Your task to perform on an android device: Clear all items from cart on costco. Search for "corsair k70" on costco, select the first entry, add it to the cart, then select checkout. Image 0: 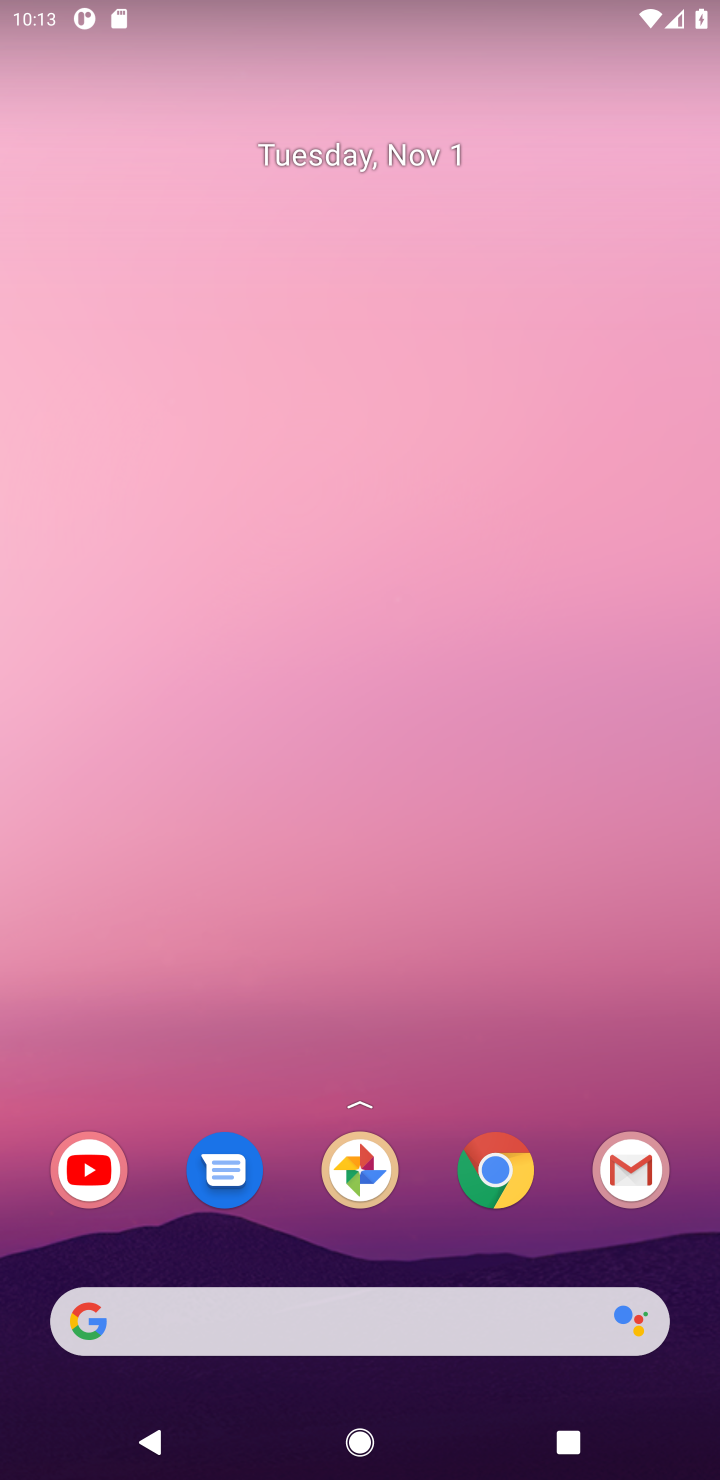
Step 0: click (498, 1182)
Your task to perform on an android device: Clear all items from cart on costco. Search for "corsair k70" on costco, select the first entry, add it to the cart, then select checkout. Image 1: 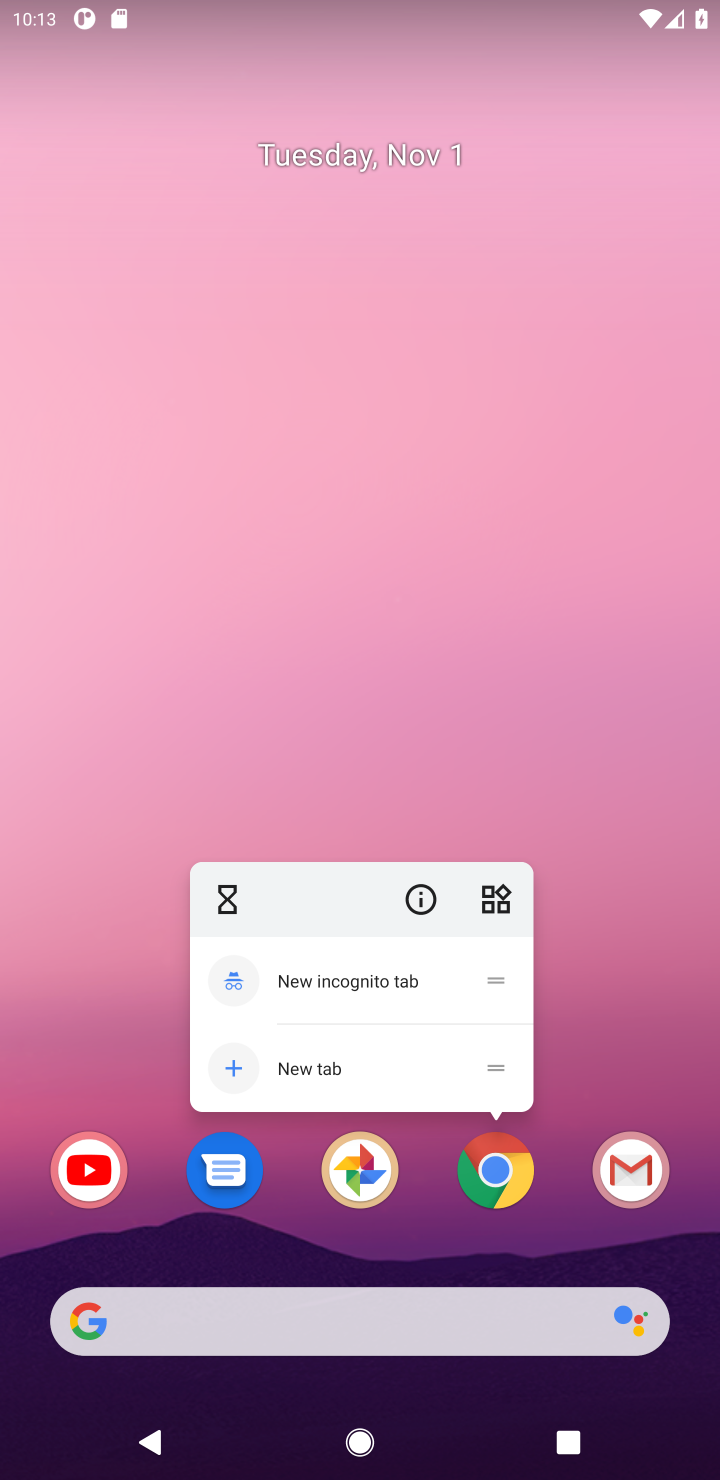
Step 1: click (518, 1169)
Your task to perform on an android device: Clear all items from cart on costco. Search for "corsair k70" on costco, select the first entry, add it to the cart, then select checkout. Image 2: 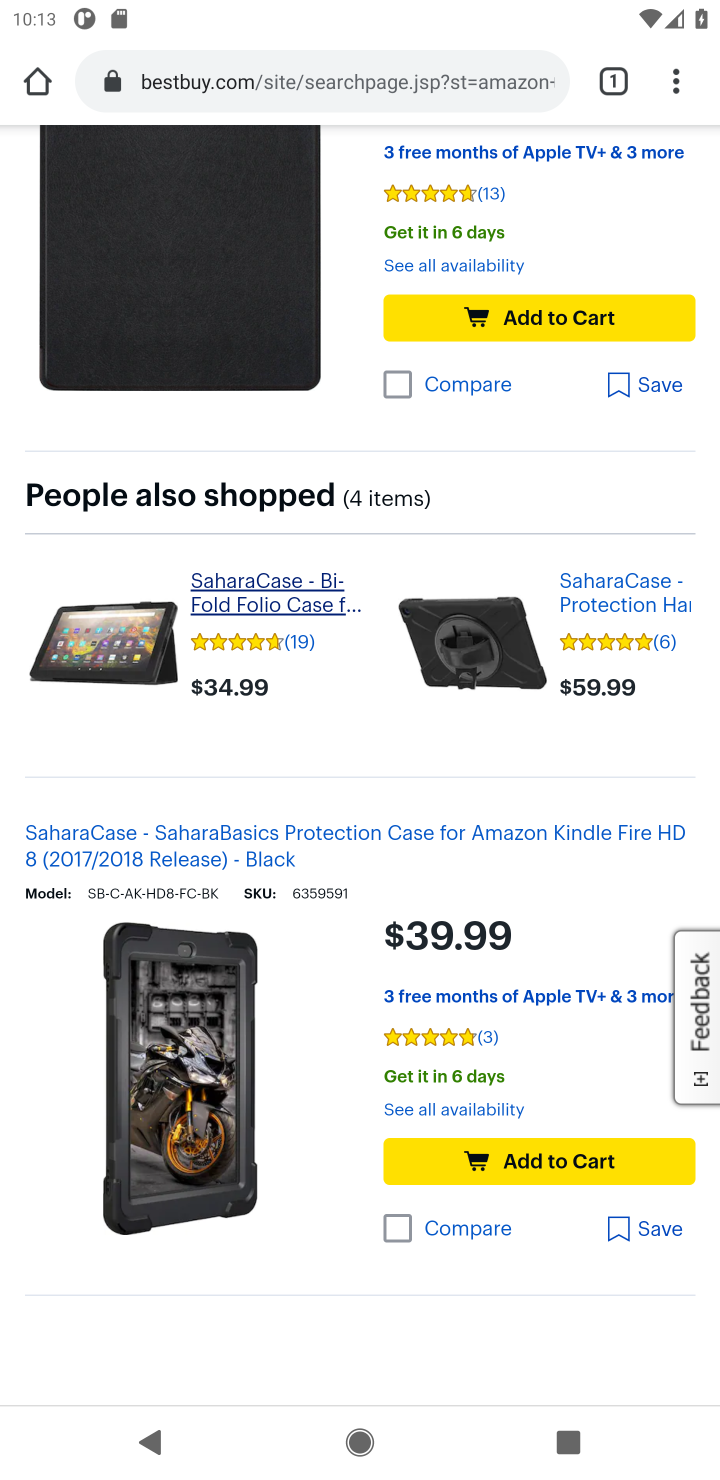
Step 2: click (338, 74)
Your task to perform on an android device: Clear all items from cart on costco. Search for "corsair k70" on costco, select the first entry, add it to the cart, then select checkout. Image 3: 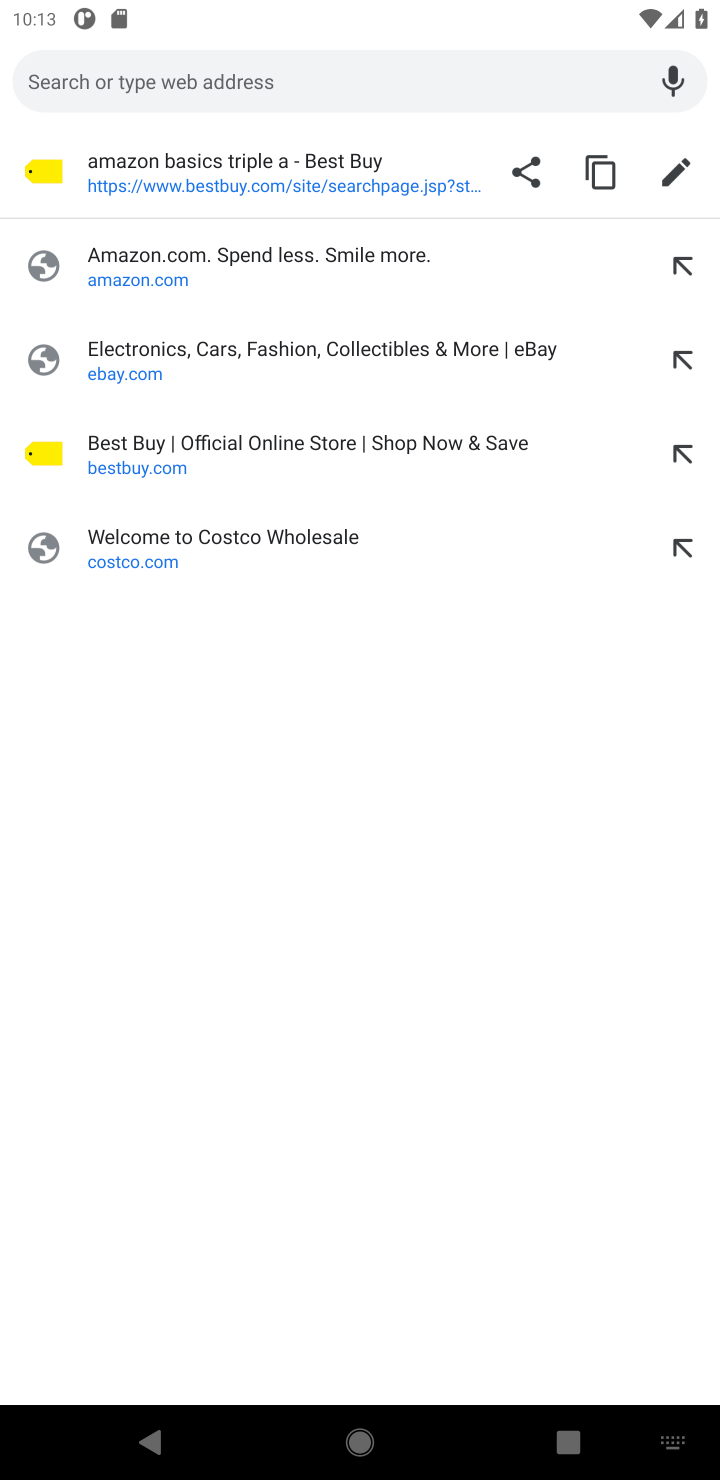
Step 3: type "costco"
Your task to perform on an android device: Clear all items from cart on costco. Search for "corsair k70" on costco, select the first entry, add it to the cart, then select checkout. Image 4: 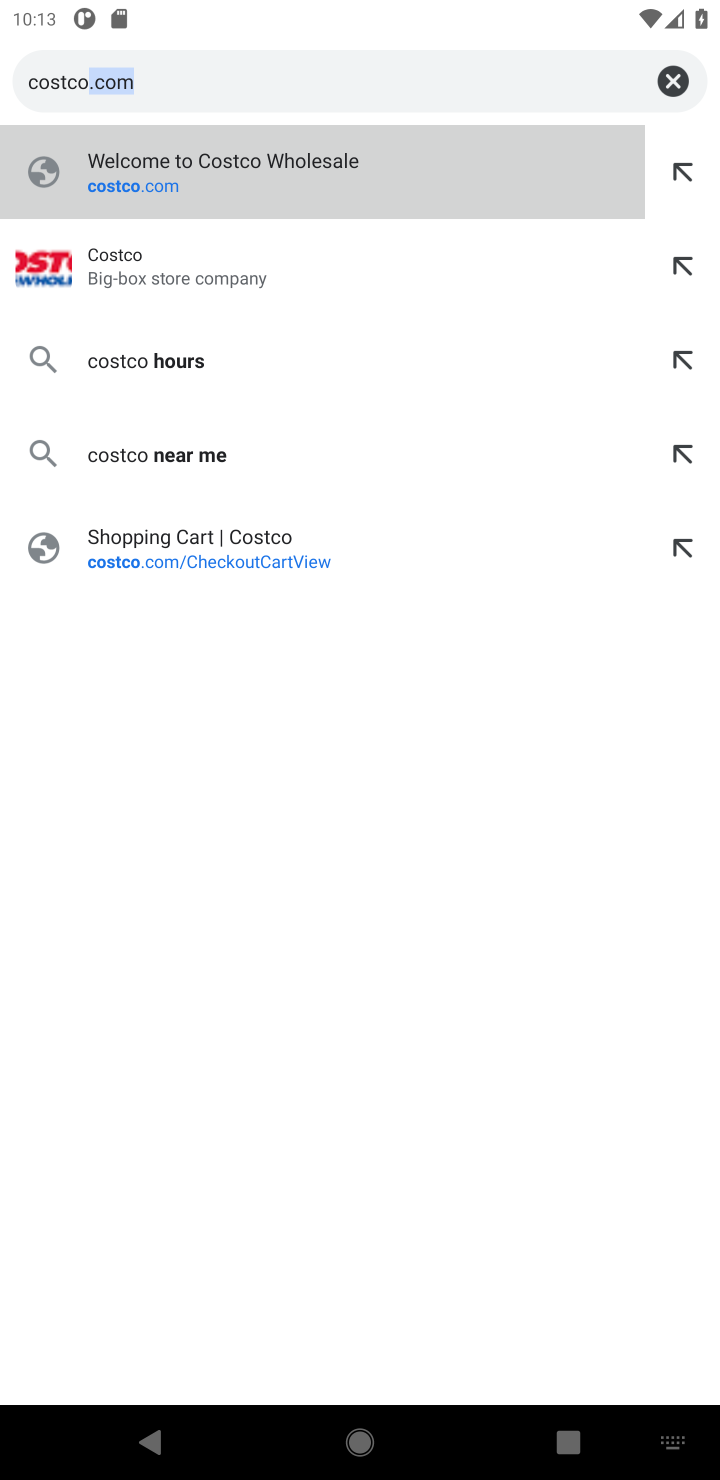
Step 4: type ""
Your task to perform on an android device: Clear all items from cart on costco. Search for "corsair k70" on costco, select the first entry, add it to the cart, then select checkout. Image 5: 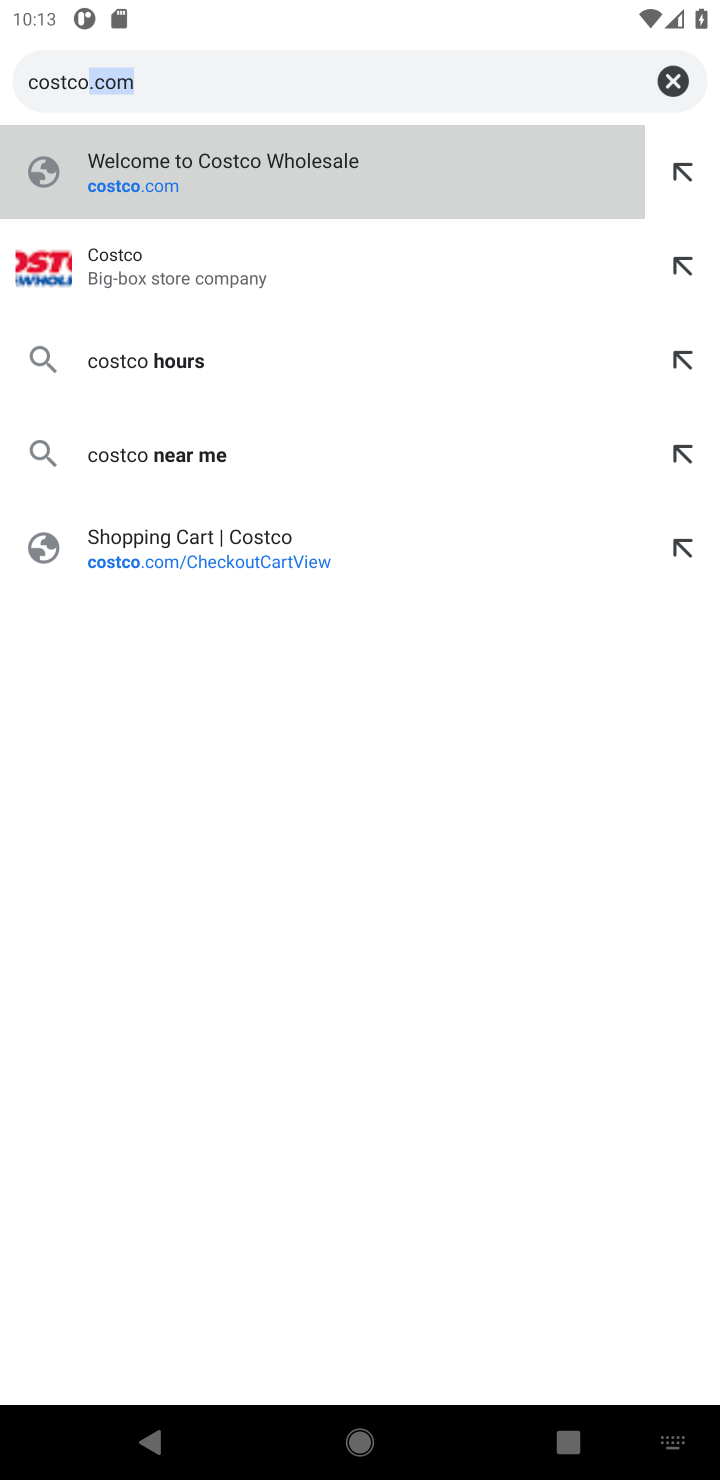
Step 5: press enter
Your task to perform on an android device: Clear all items from cart on costco. Search for "corsair k70" on costco, select the first entry, add it to the cart, then select checkout. Image 6: 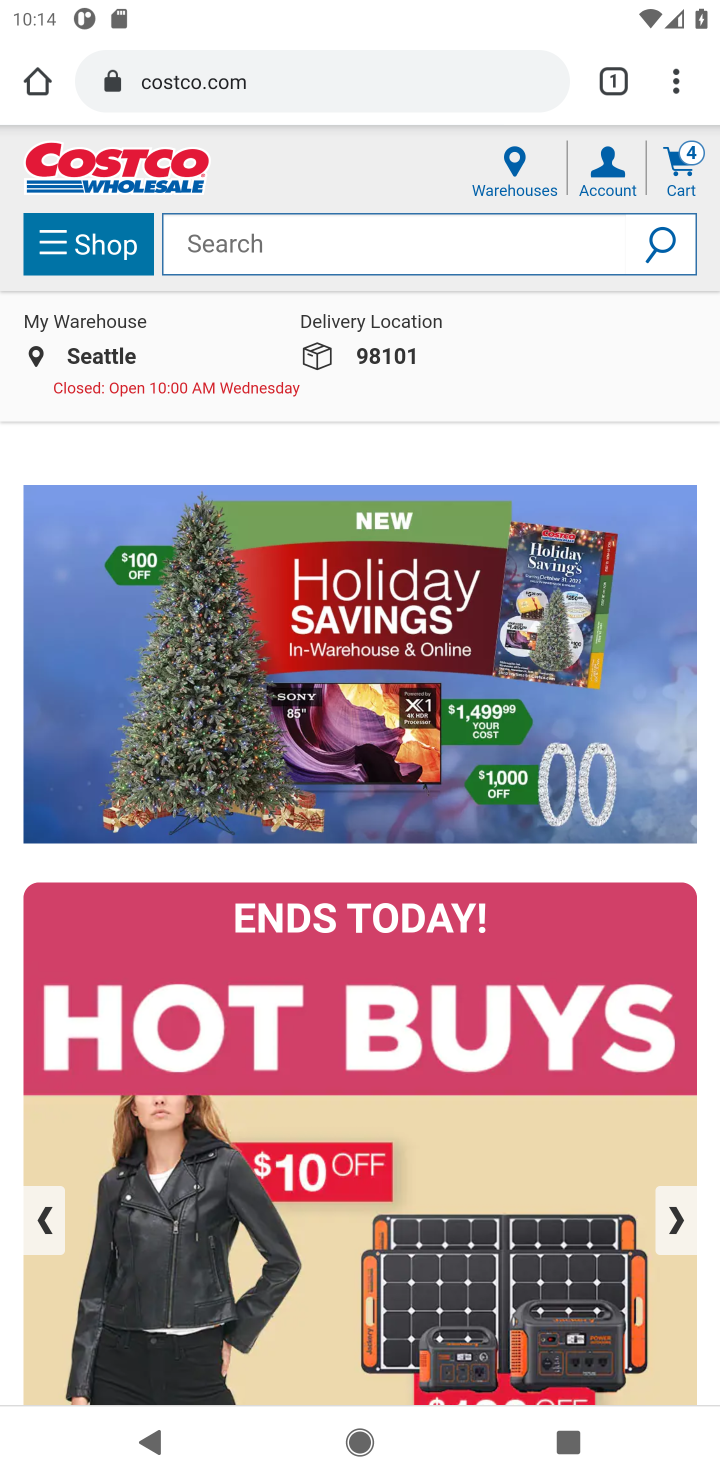
Step 6: click (678, 178)
Your task to perform on an android device: Clear all items from cart on costco. Search for "corsair k70" on costco, select the first entry, add it to the cart, then select checkout. Image 7: 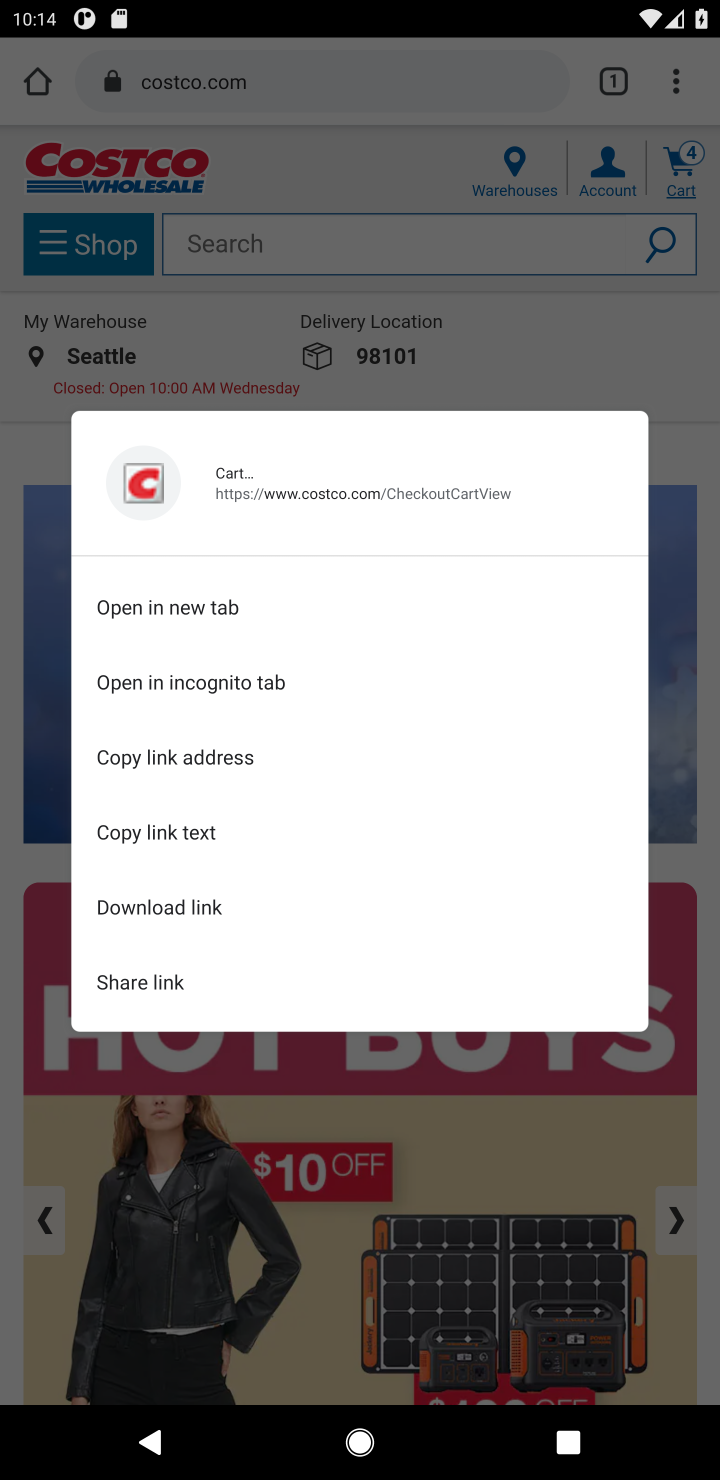
Step 7: click (683, 177)
Your task to perform on an android device: Clear all items from cart on costco. Search for "corsair k70" on costco, select the first entry, add it to the cart, then select checkout. Image 8: 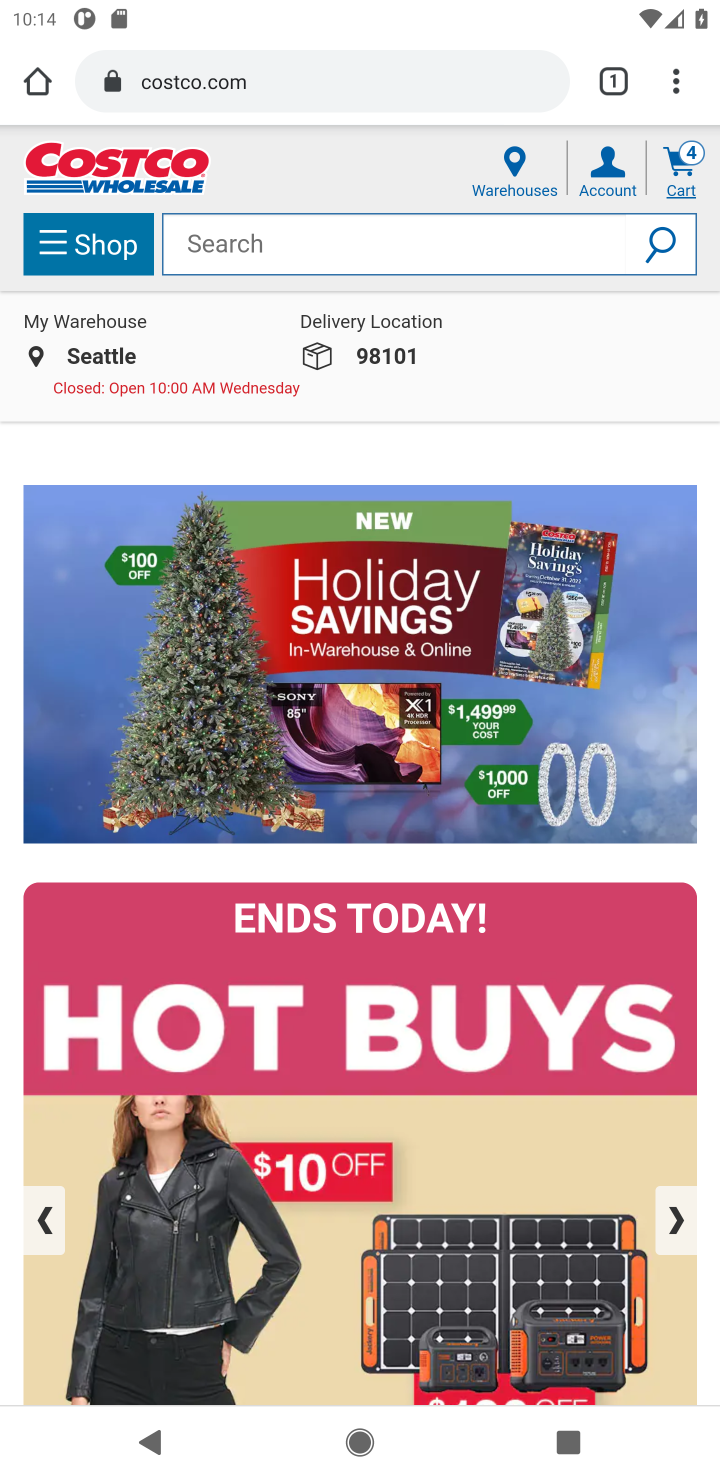
Step 8: click (683, 177)
Your task to perform on an android device: Clear all items from cart on costco. Search for "corsair k70" on costco, select the first entry, add it to the cart, then select checkout. Image 9: 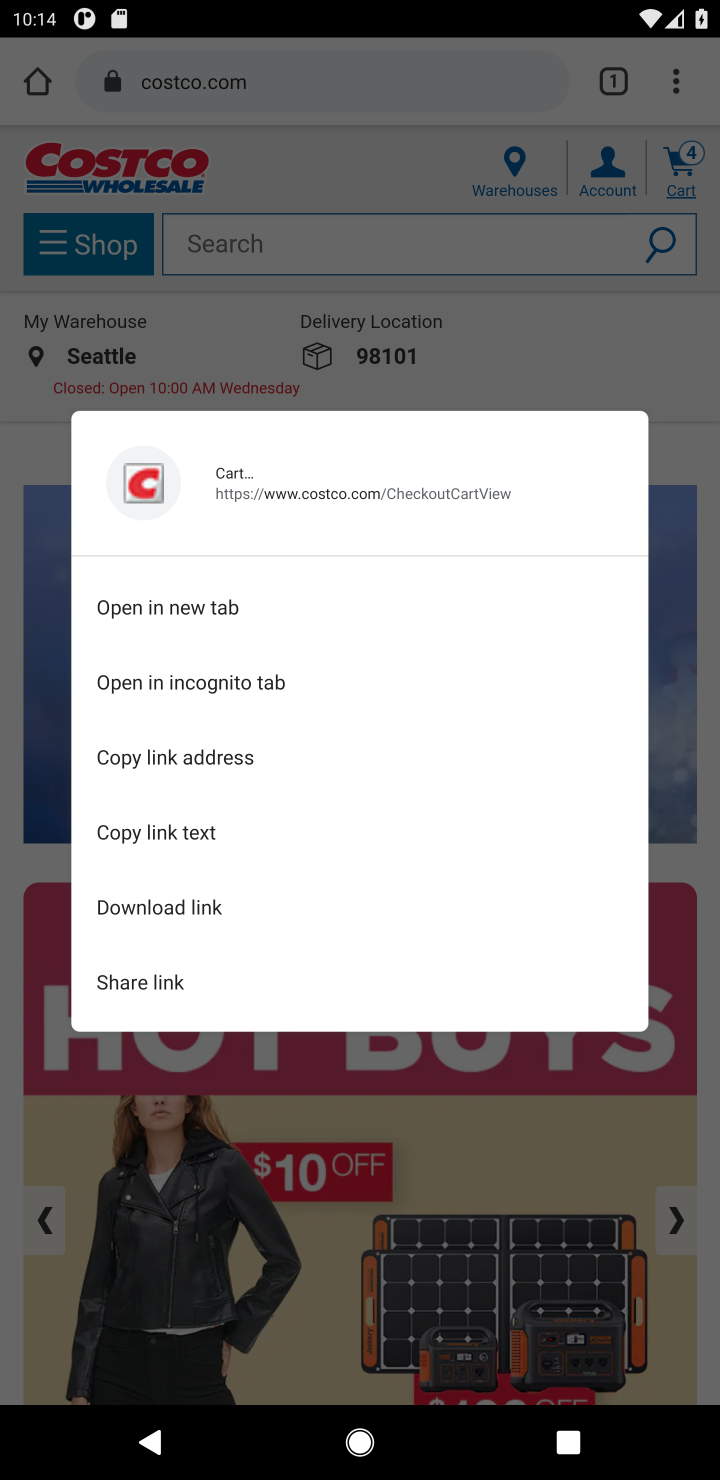
Step 9: click (686, 167)
Your task to perform on an android device: Clear all items from cart on costco. Search for "corsair k70" on costco, select the first entry, add it to the cart, then select checkout. Image 10: 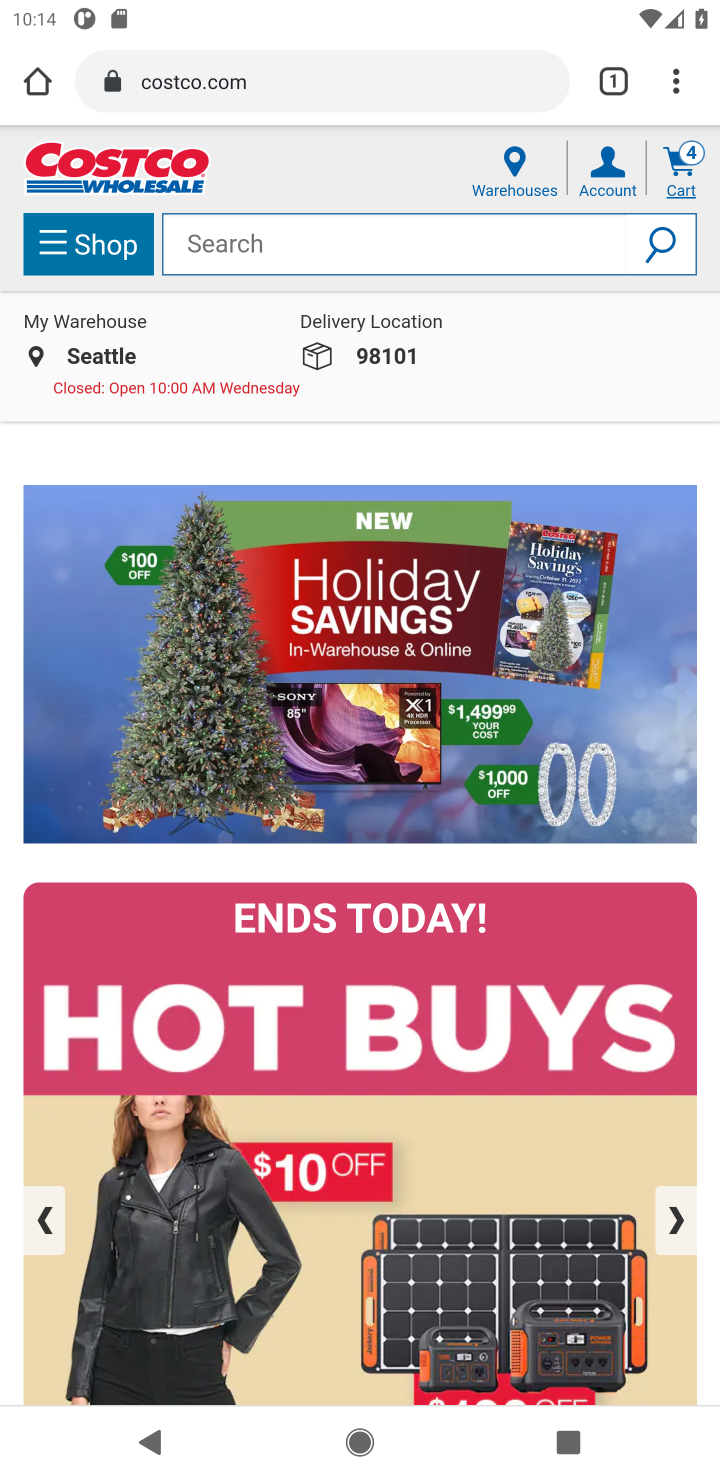
Step 10: click (695, 174)
Your task to perform on an android device: Clear all items from cart on costco. Search for "corsair k70" on costco, select the first entry, add it to the cart, then select checkout. Image 11: 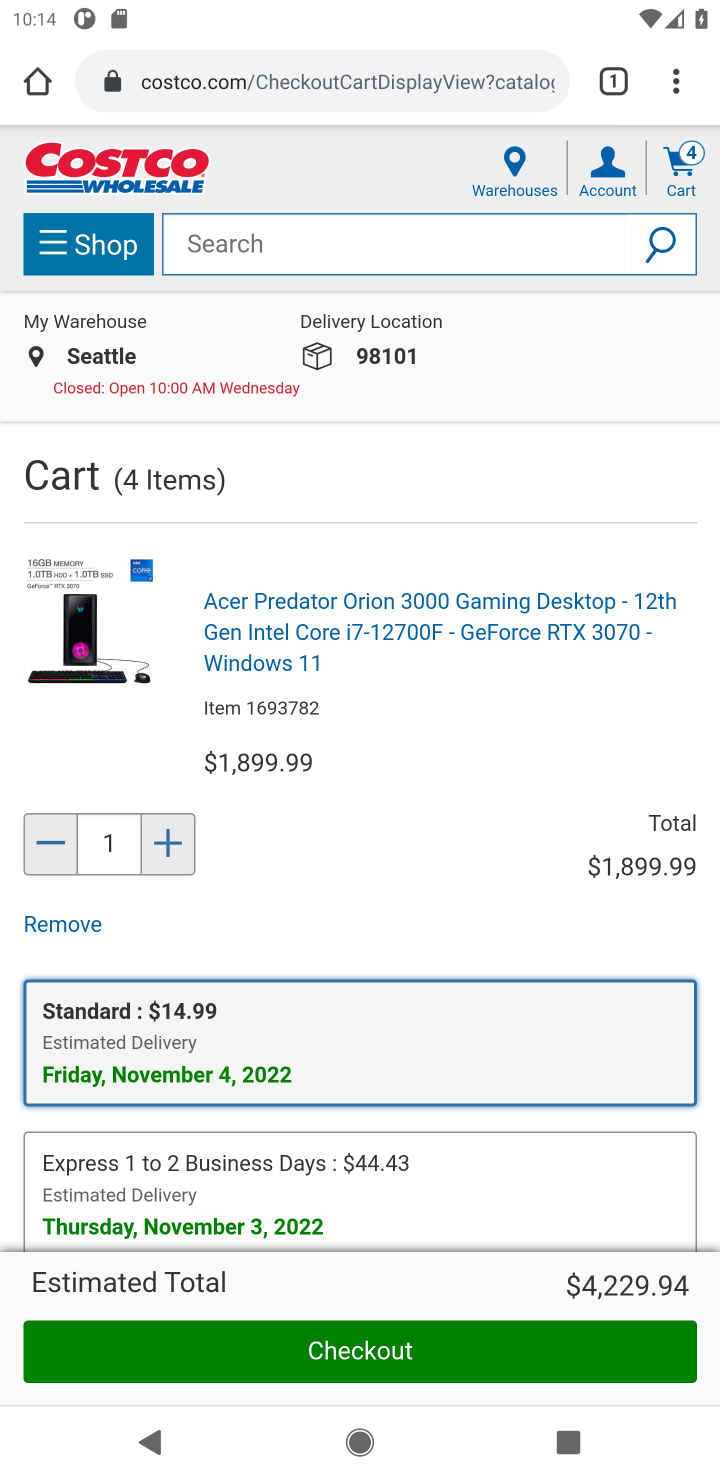
Step 11: click (80, 926)
Your task to perform on an android device: Clear all items from cart on costco. Search for "corsair k70" on costco, select the first entry, add it to the cart, then select checkout. Image 12: 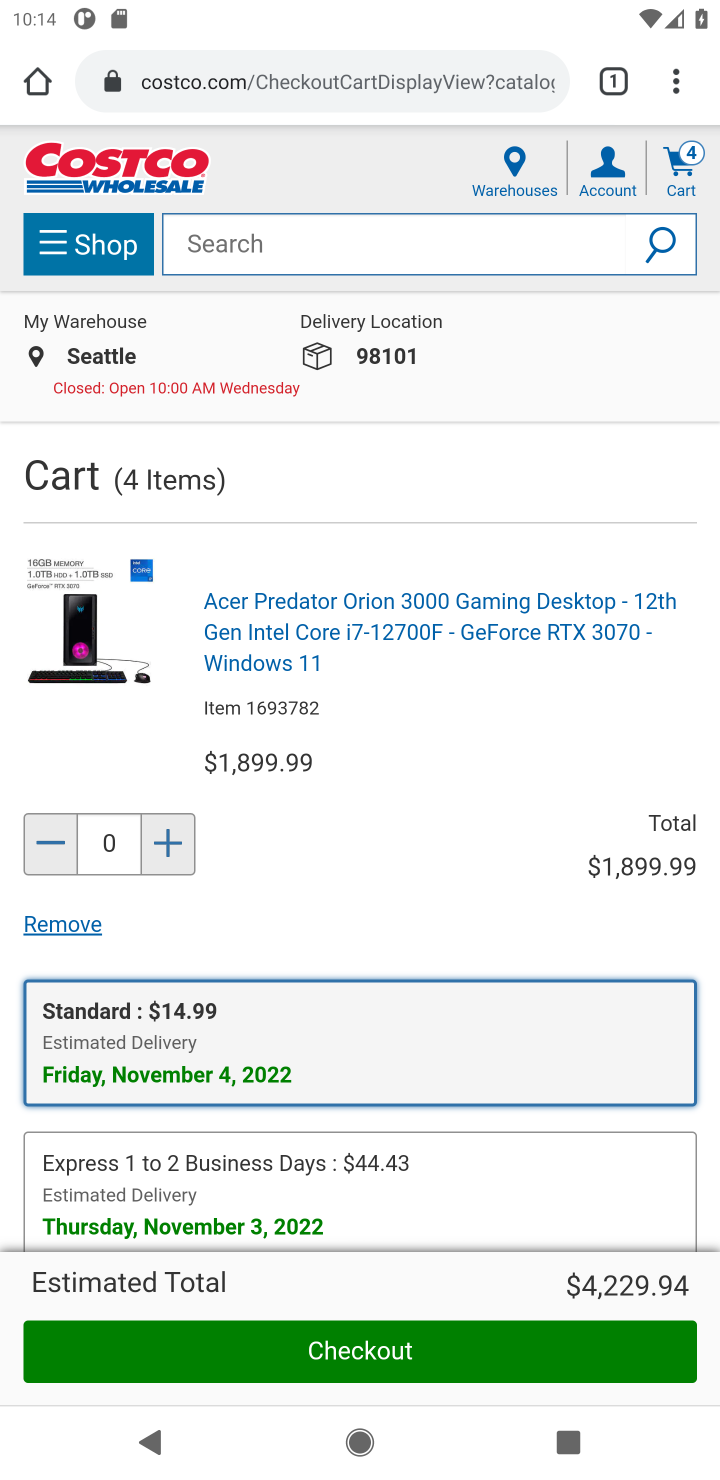
Step 12: click (73, 935)
Your task to perform on an android device: Clear all items from cart on costco. Search for "corsair k70" on costco, select the first entry, add it to the cart, then select checkout. Image 13: 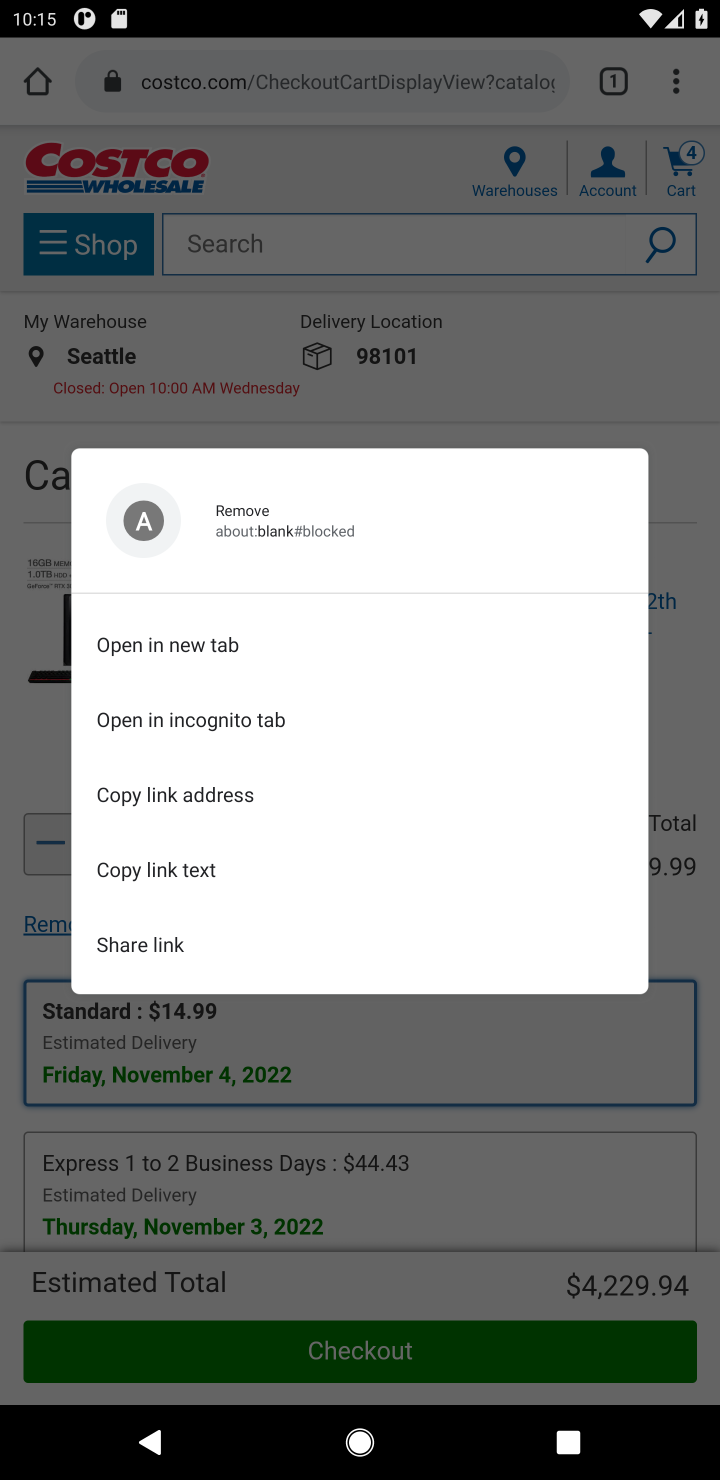
Step 13: click (35, 932)
Your task to perform on an android device: Clear all items from cart on costco. Search for "corsair k70" on costco, select the first entry, add it to the cart, then select checkout. Image 14: 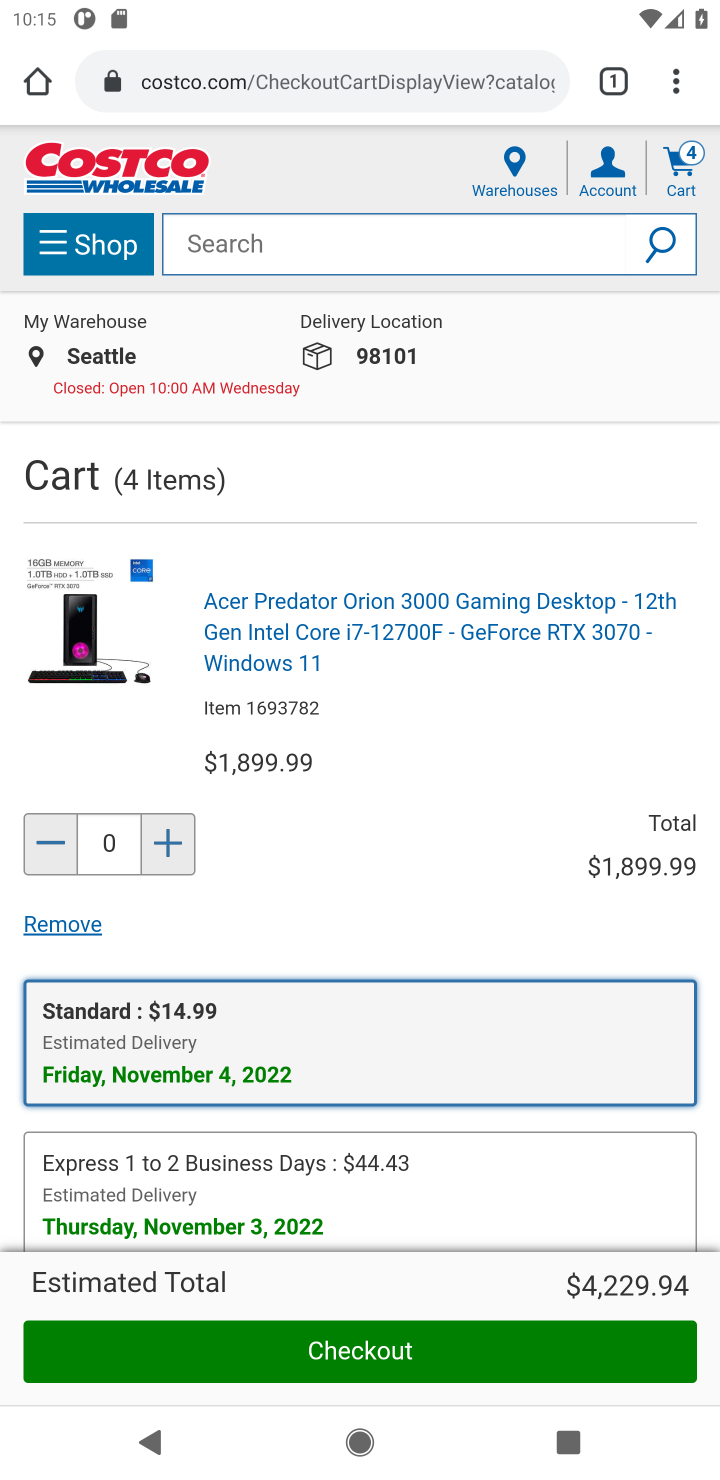
Step 14: click (77, 931)
Your task to perform on an android device: Clear all items from cart on costco. Search for "corsair k70" on costco, select the first entry, add it to the cart, then select checkout. Image 15: 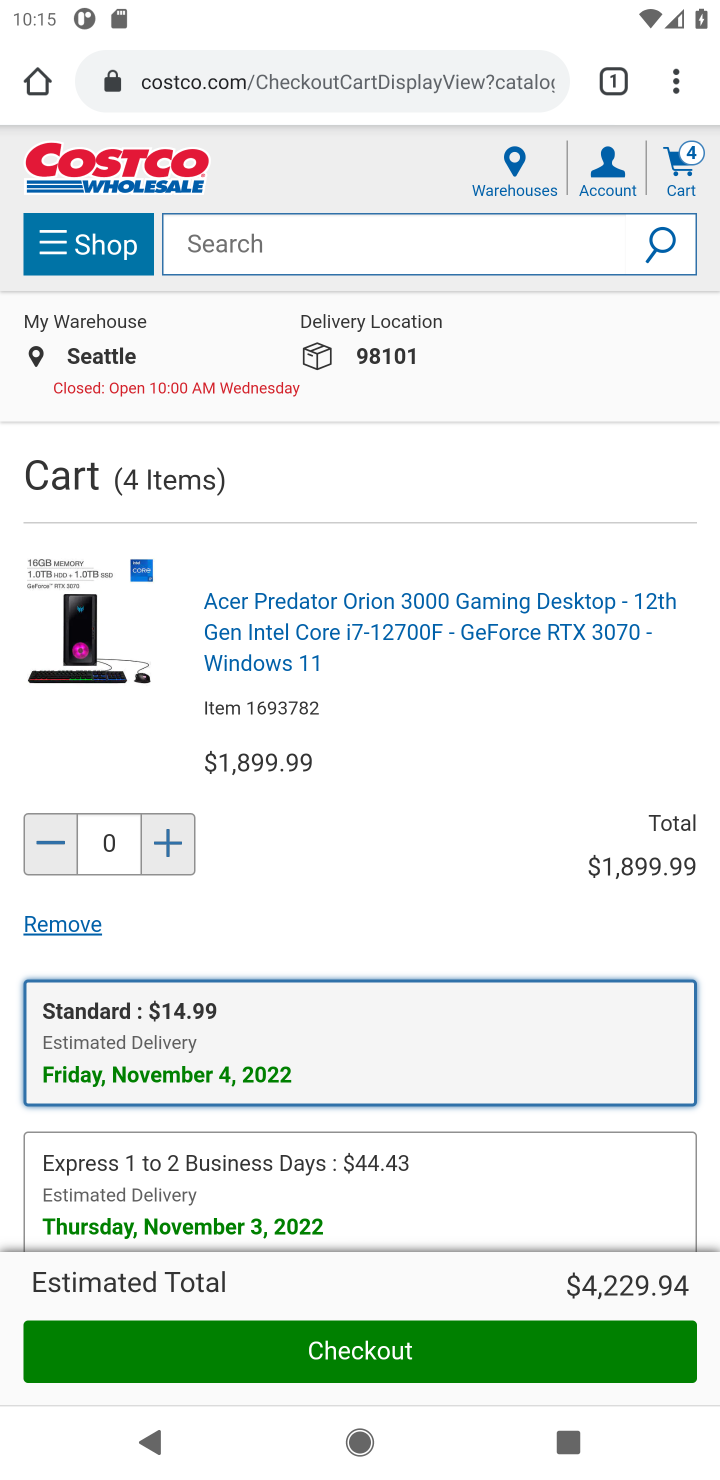
Step 15: drag from (374, 936) to (364, 782)
Your task to perform on an android device: Clear all items from cart on costco. Search for "corsair k70" on costco, select the first entry, add it to the cart, then select checkout. Image 16: 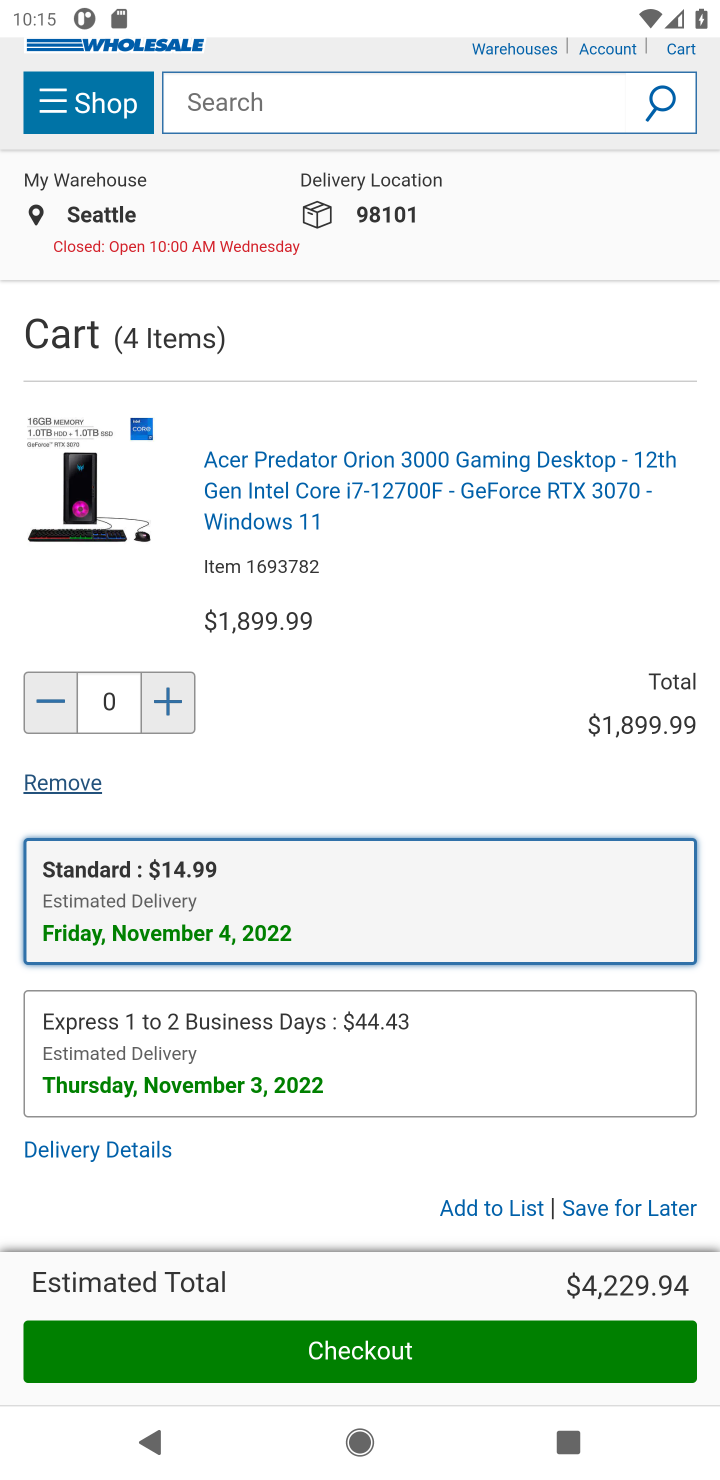
Step 16: click (74, 798)
Your task to perform on an android device: Clear all items from cart on costco. Search for "corsair k70" on costco, select the first entry, add it to the cart, then select checkout. Image 17: 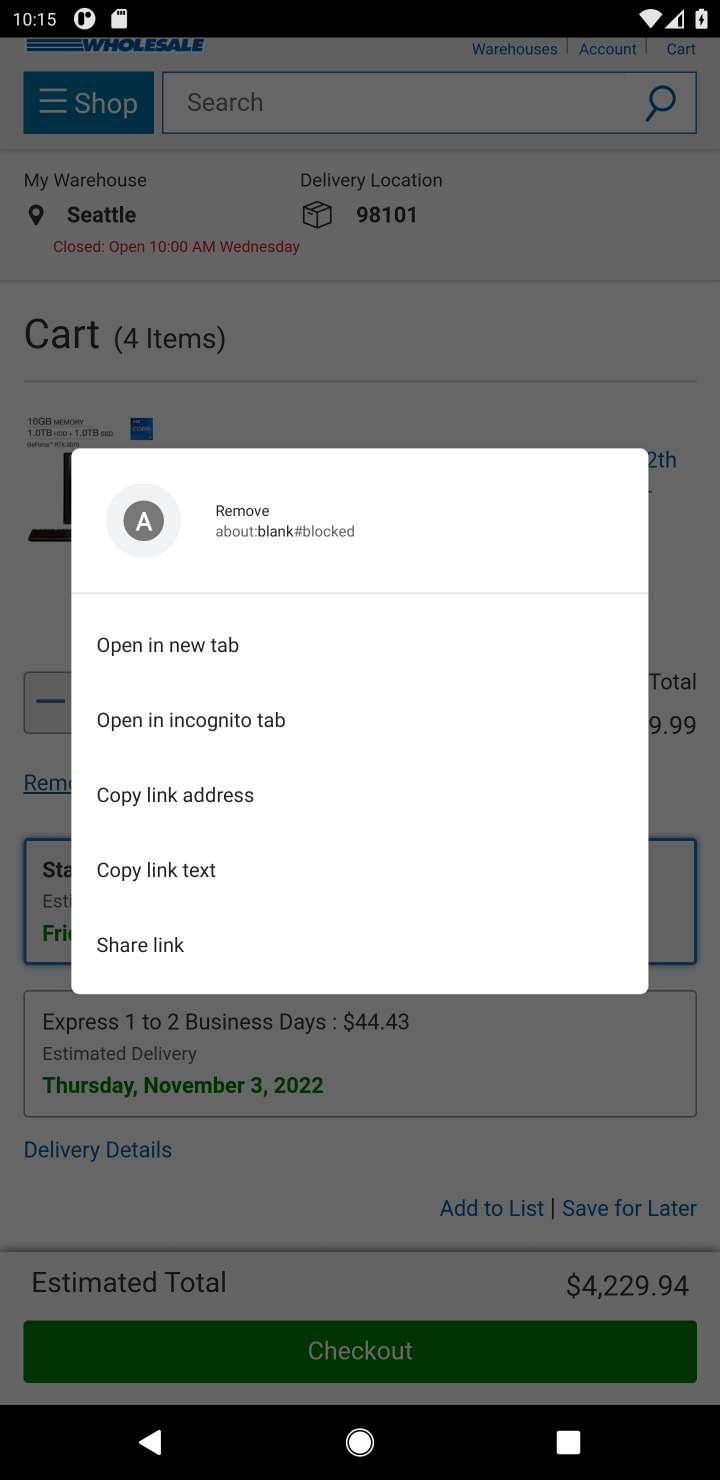
Step 17: click (38, 802)
Your task to perform on an android device: Clear all items from cart on costco. Search for "corsair k70" on costco, select the first entry, add it to the cart, then select checkout. Image 18: 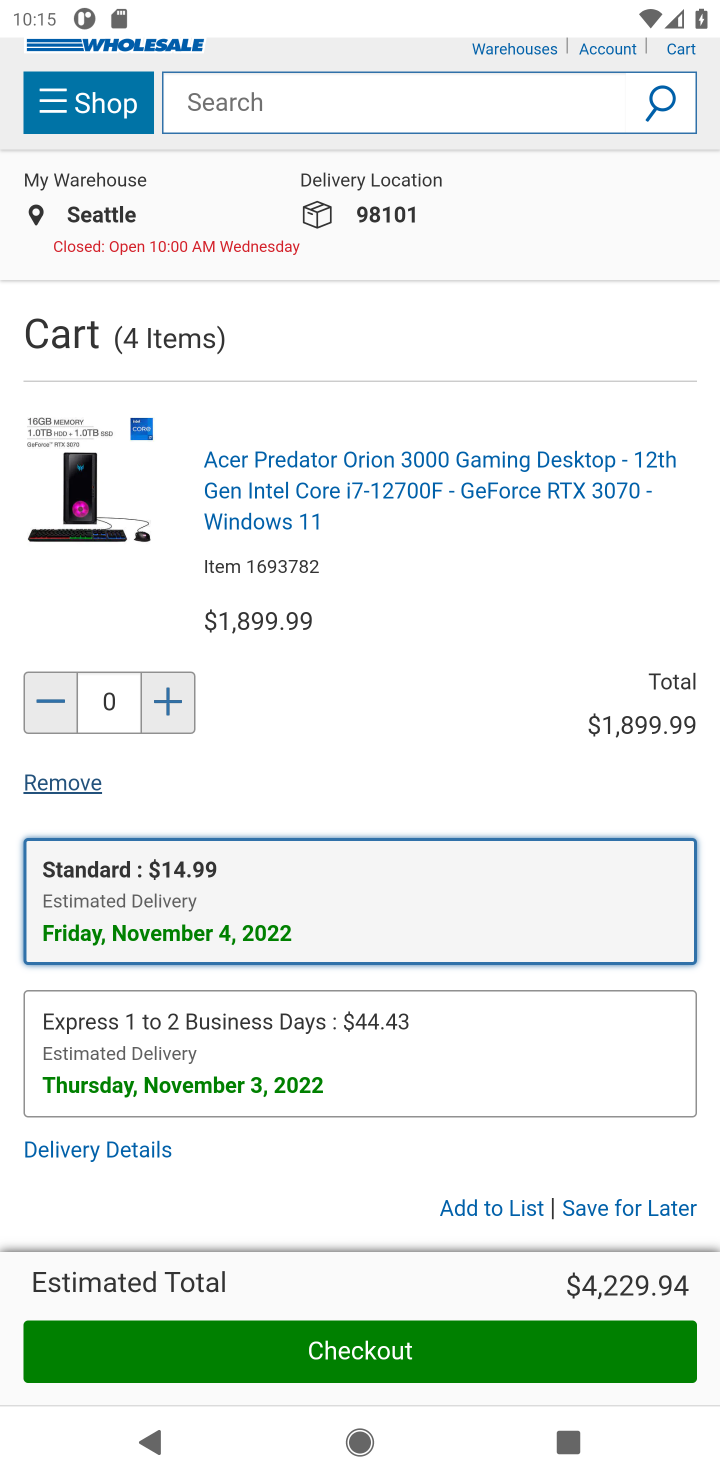
Step 18: click (75, 790)
Your task to perform on an android device: Clear all items from cart on costco. Search for "corsair k70" on costco, select the first entry, add it to the cart, then select checkout. Image 19: 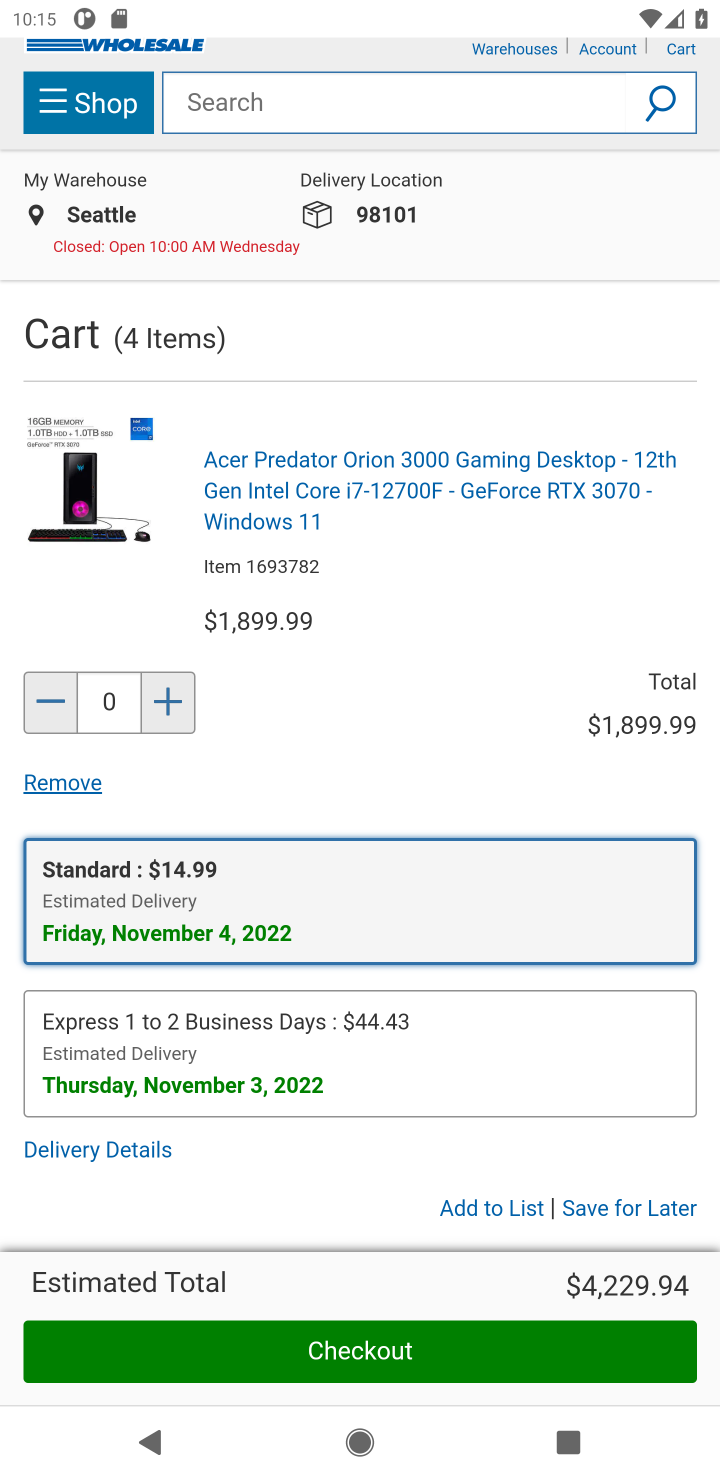
Step 19: click (619, 1200)
Your task to perform on an android device: Clear all items from cart on costco. Search for "corsair k70" on costco, select the first entry, add it to the cart, then select checkout. Image 20: 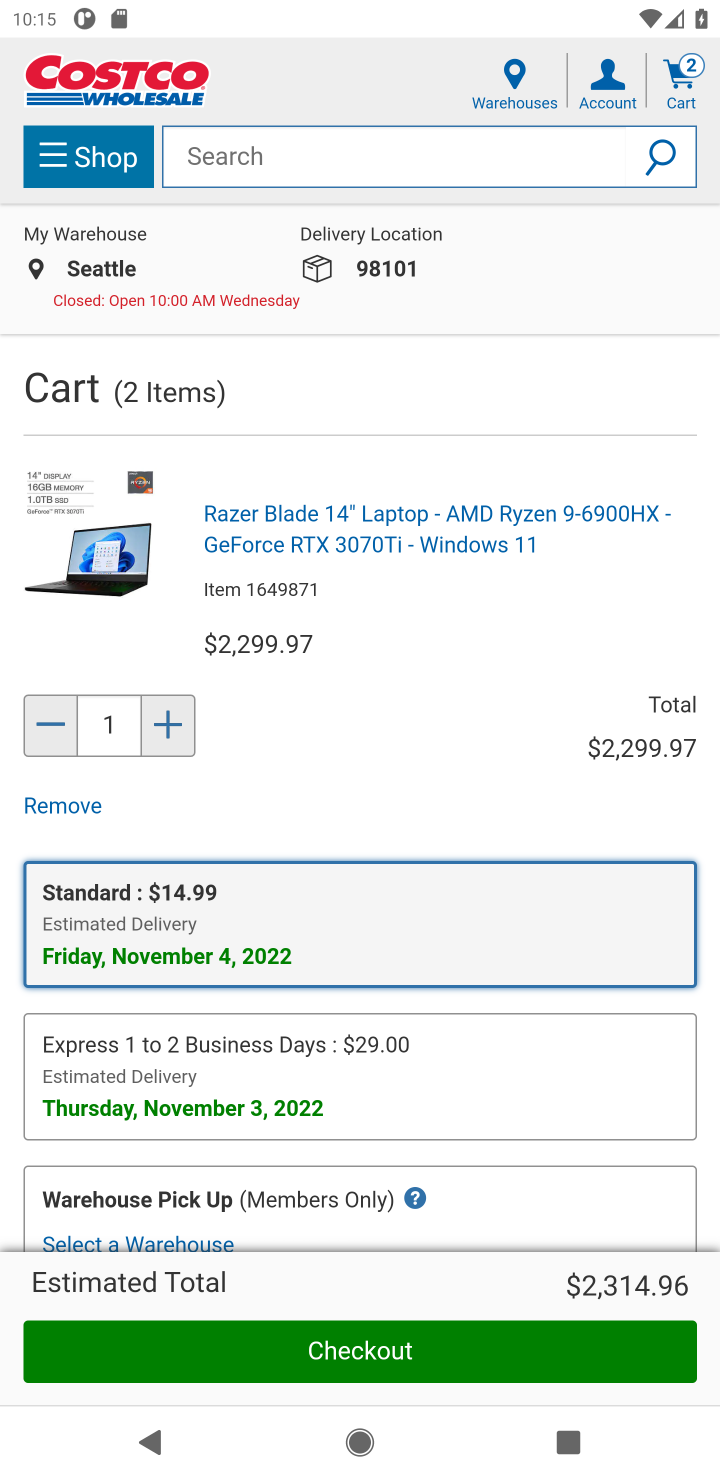
Step 20: click (60, 807)
Your task to perform on an android device: Clear all items from cart on costco. Search for "corsair k70" on costco, select the first entry, add it to the cart, then select checkout. Image 21: 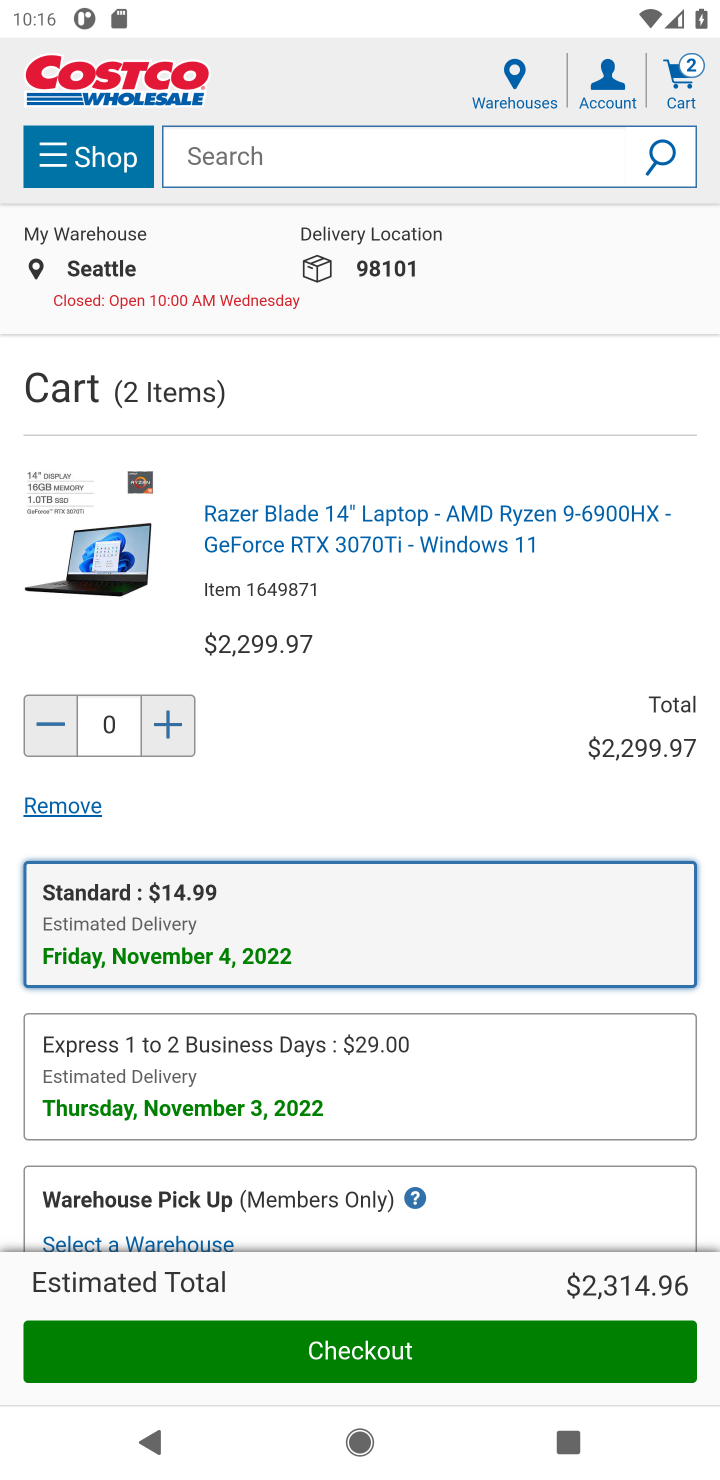
Step 21: click (75, 811)
Your task to perform on an android device: Clear all items from cart on costco. Search for "corsair k70" on costco, select the first entry, add it to the cart, then select checkout. Image 22: 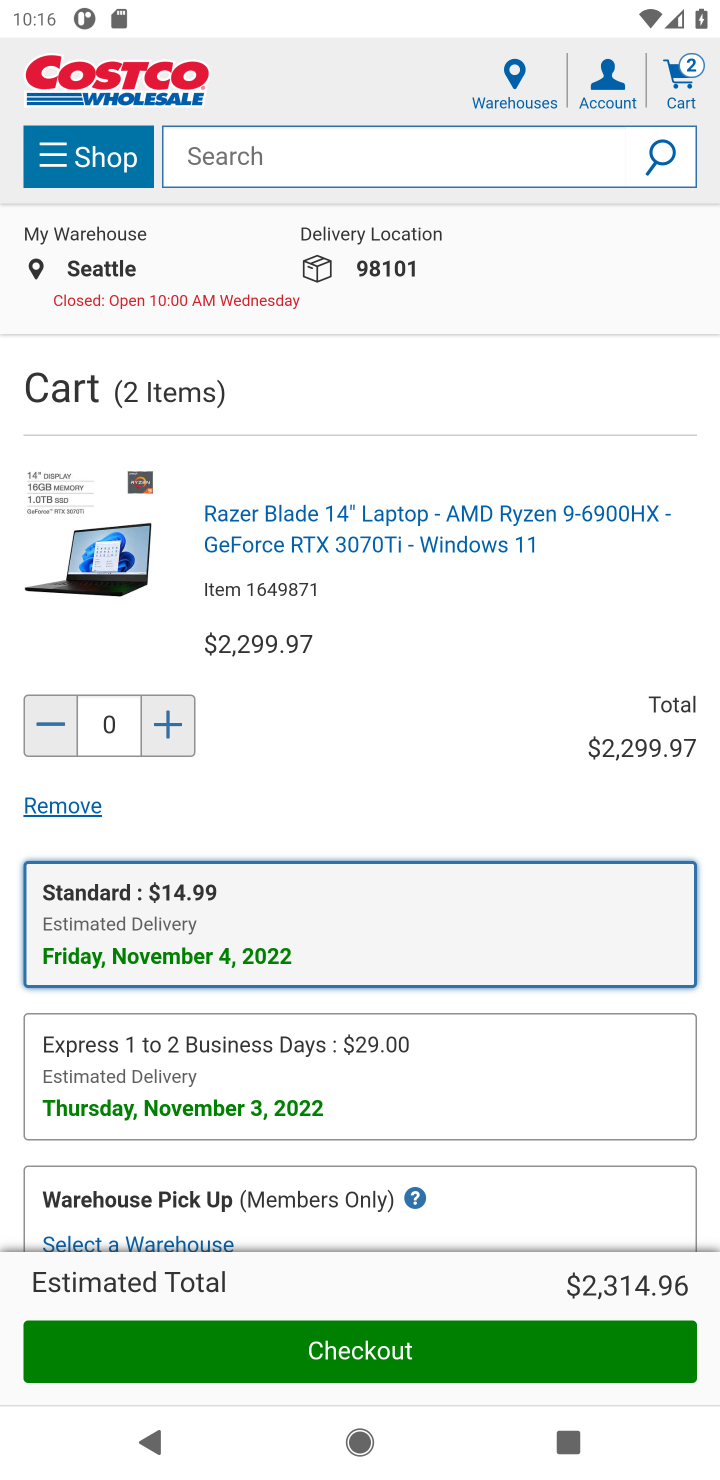
Step 22: drag from (373, 895) to (379, 418)
Your task to perform on an android device: Clear all items from cart on costco. Search for "corsair k70" on costco, select the first entry, add it to the cart, then select checkout. Image 23: 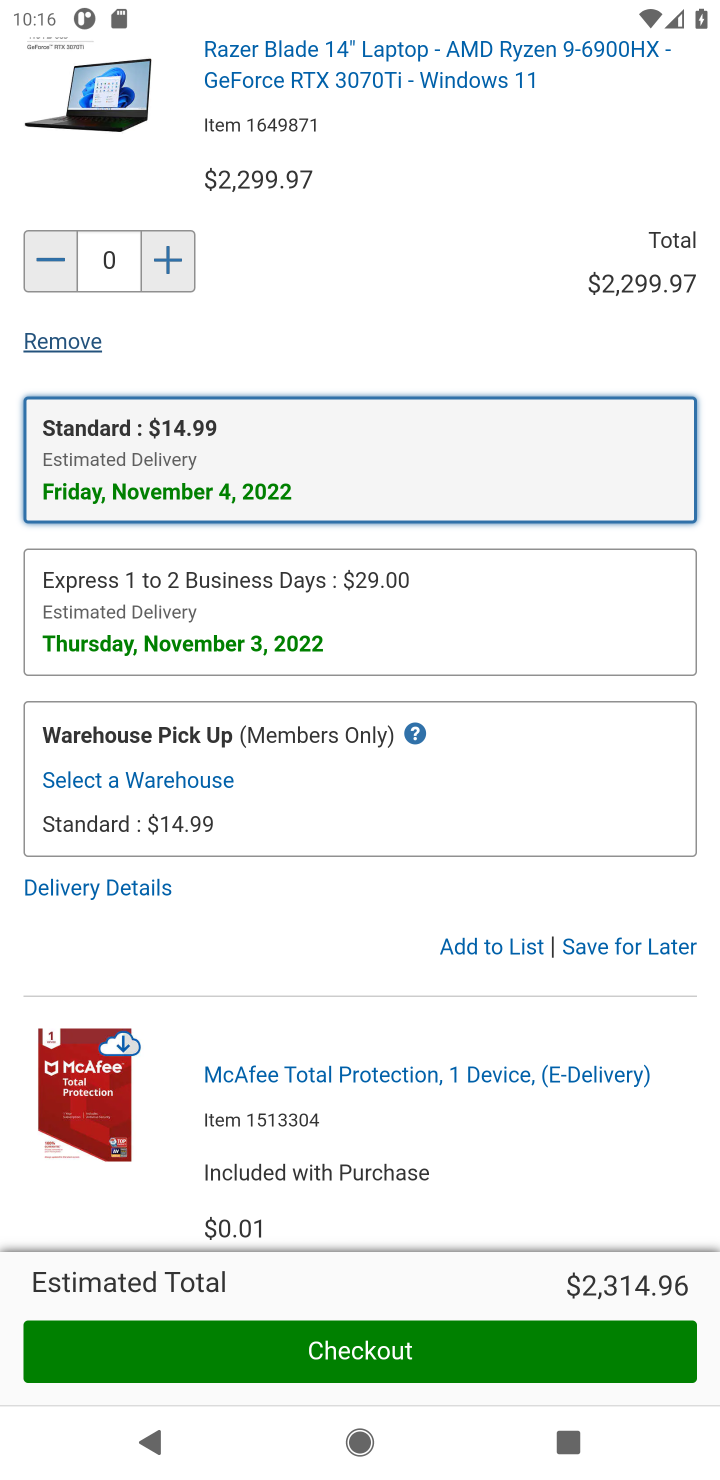
Step 23: click (73, 341)
Your task to perform on an android device: Clear all items from cart on costco. Search for "corsair k70" on costco, select the first entry, add it to the cart, then select checkout. Image 24: 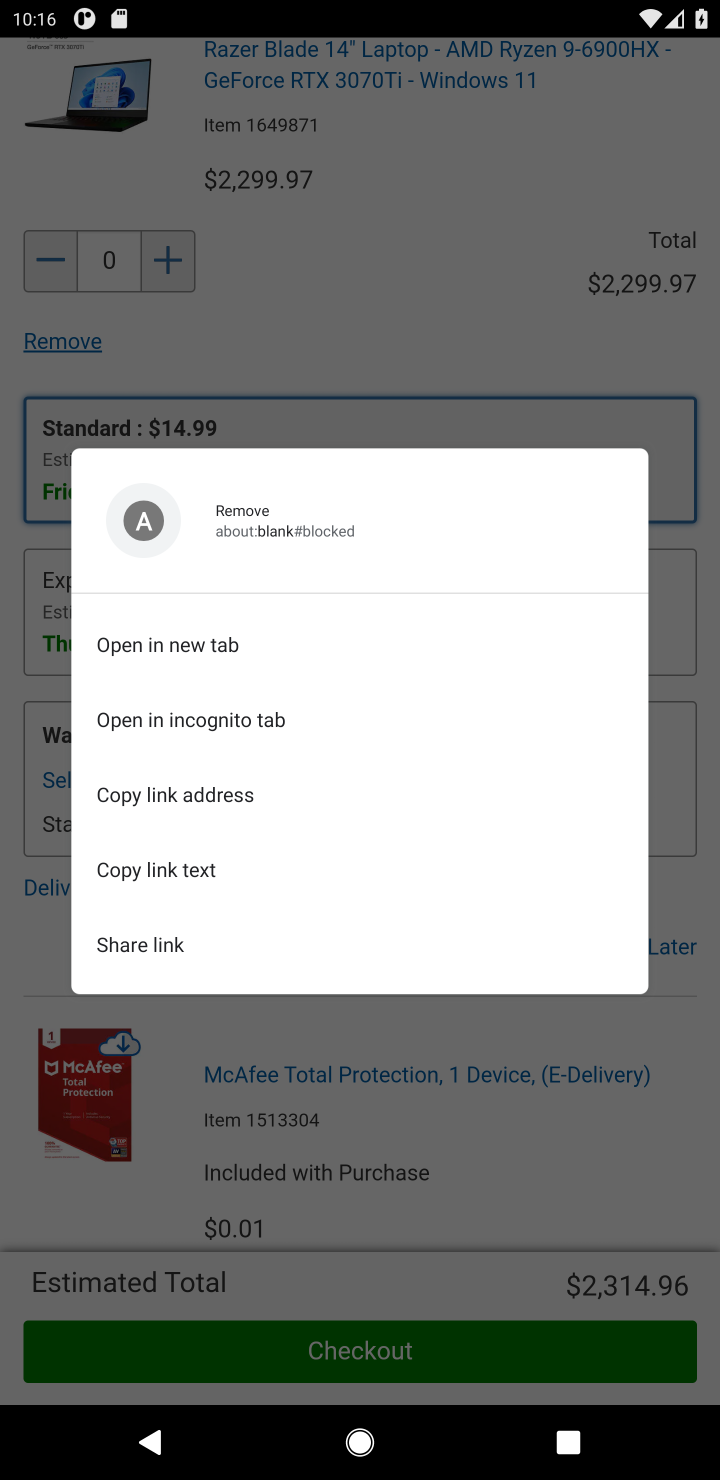
Step 24: click (272, 319)
Your task to perform on an android device: Clear all items from cart on costco. Search for "corsair k70" on costco, select the first entry, add it to the cart, then select checkout. Image 25: 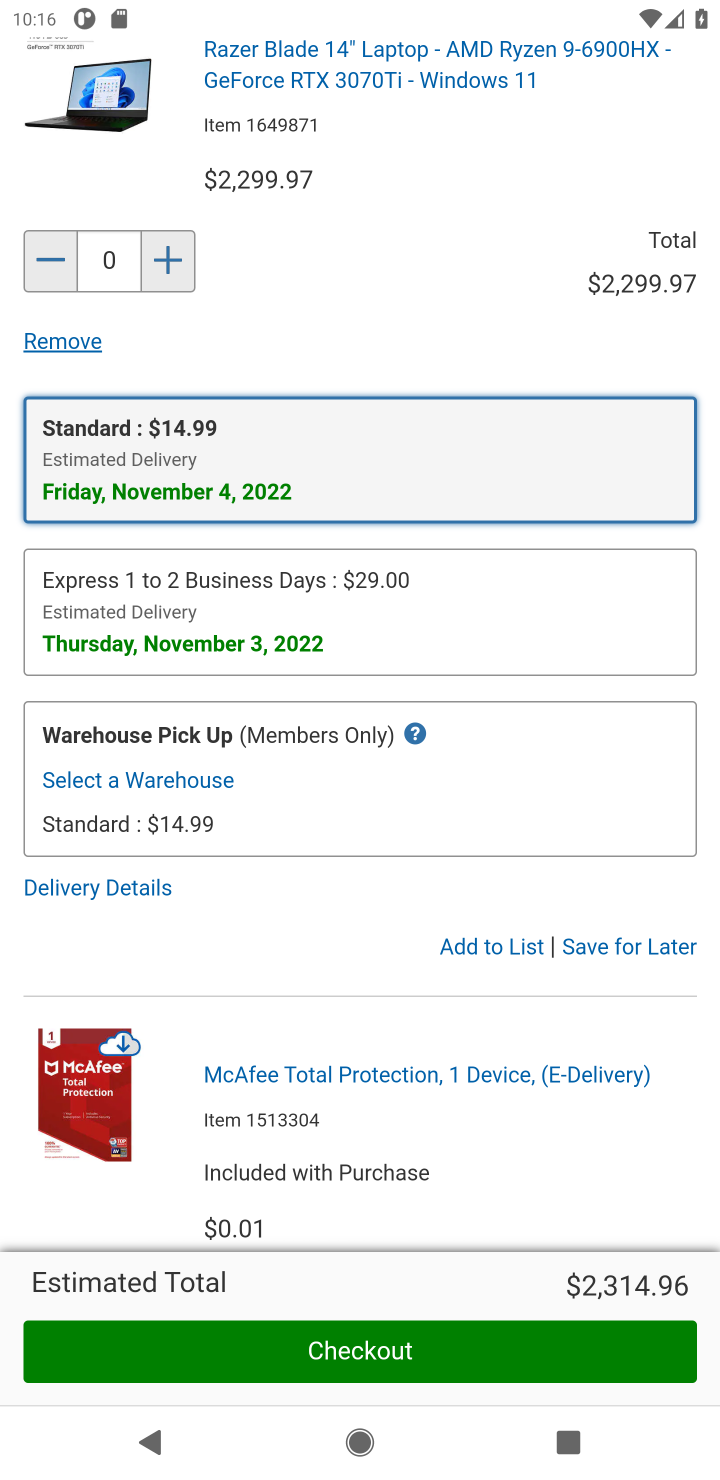
Step 25: click (62, 347)
Your task to perform on an android device: Clear all items from cart on costco. Search for "corsair k70" on costco, select the first entry, add it to the cart, then select checkout. Image 26: 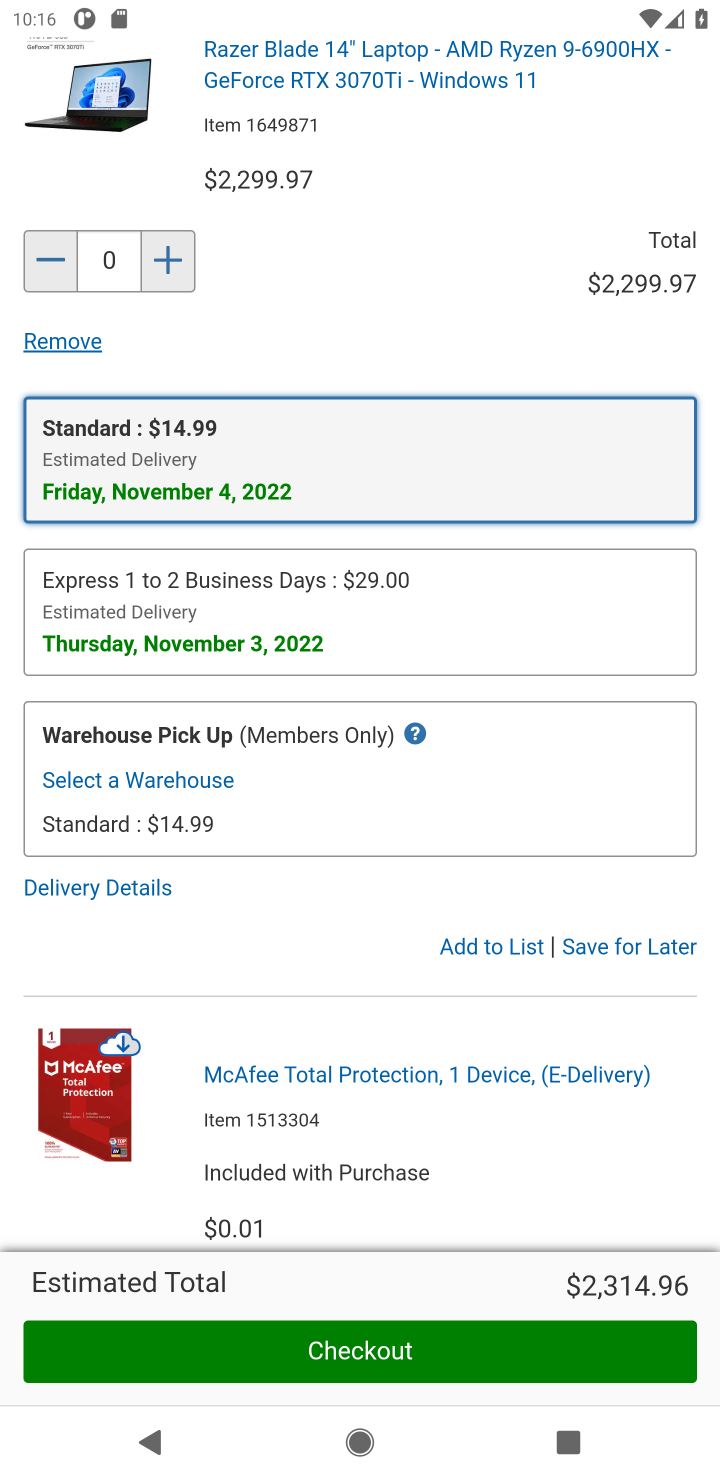
Step 26: click (611, 948)
Your task to perform on an android device: Clear all items from cart on costco. Search for "corsair k70" on costco, select the first entry, add it to the cart, then select checkout. Image 27: 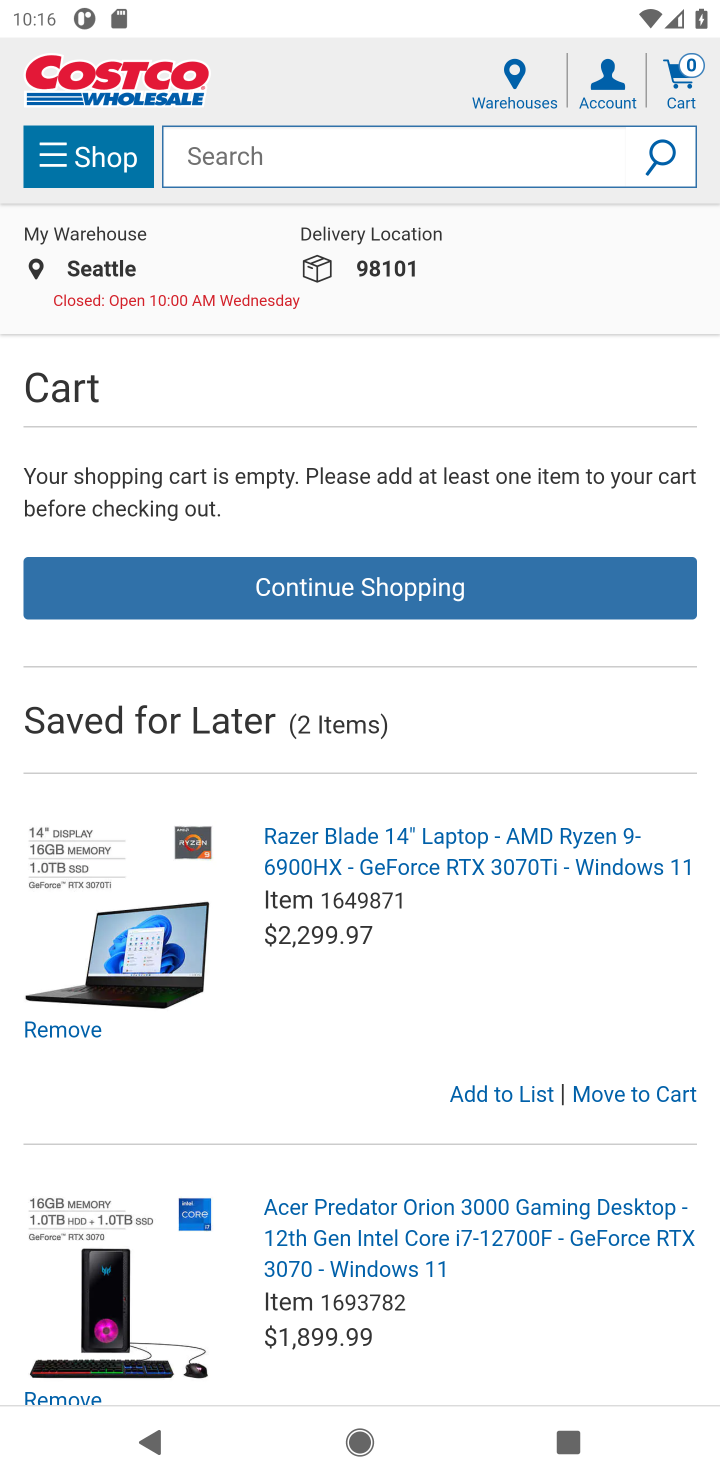
Step 27: click (363, 165)
Your task to perform on an android device: Clear all items from cart on costco. Search for "corsair k70" on costco, select the first entry, add it to the cart, then select checkout. Image 28: 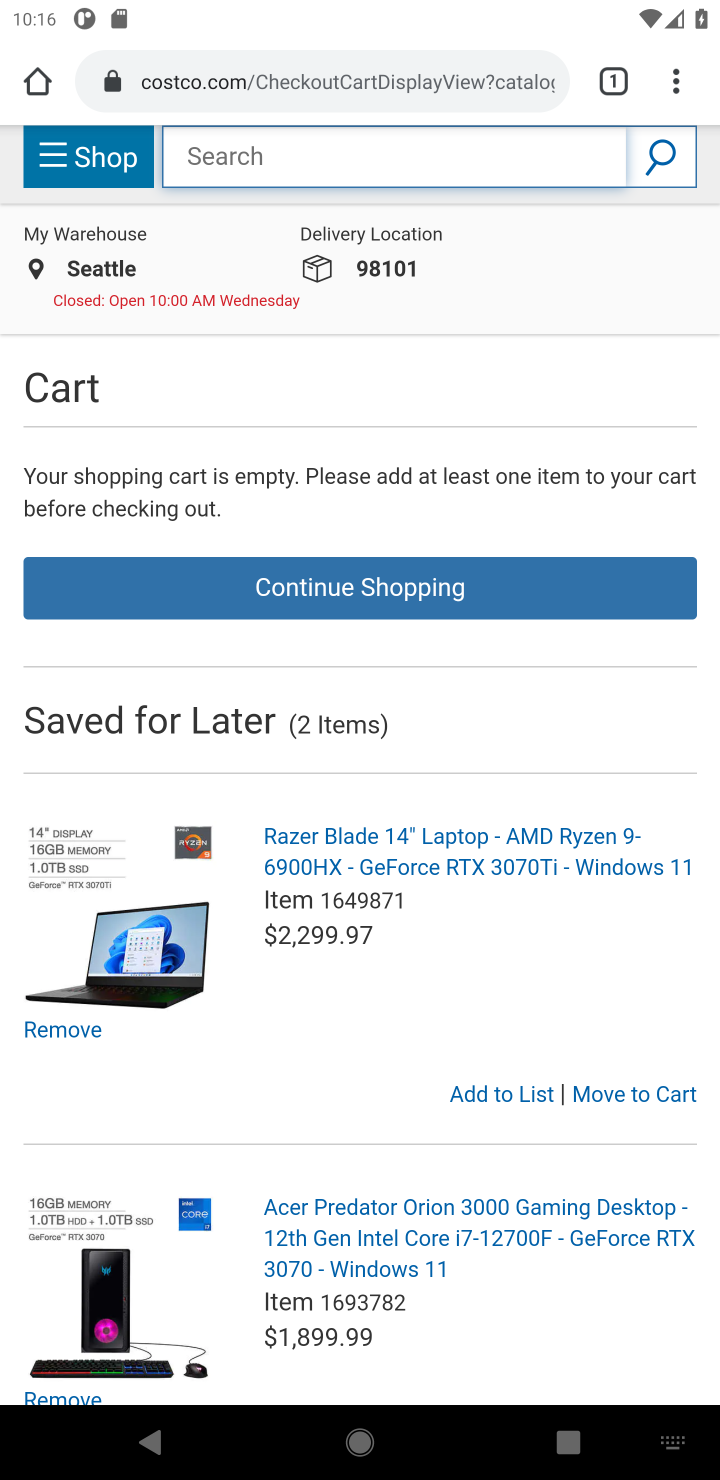
Step 28: type "corsair k70"
Your task to perform on an android device: Clear all items from cart on costco. Search for "corsair k70" on costco, select the first entry, add it to the cart, then select checkout. Image 29: 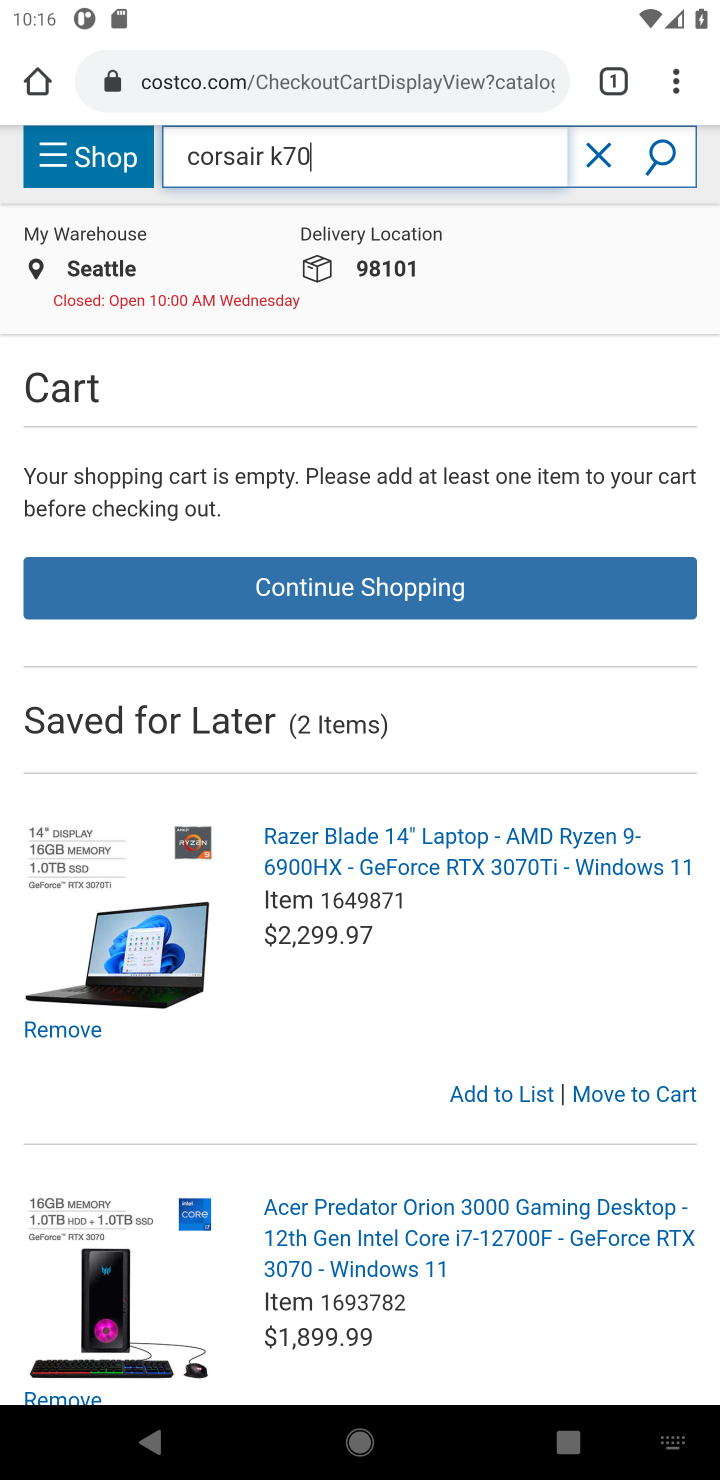
Step 29: type ""
Your task to perform on an android device: Clear all items from cart on costco. Search for "corsair k70" on costco, select the first entry, add it to the cart, then select checkout. Image 30: 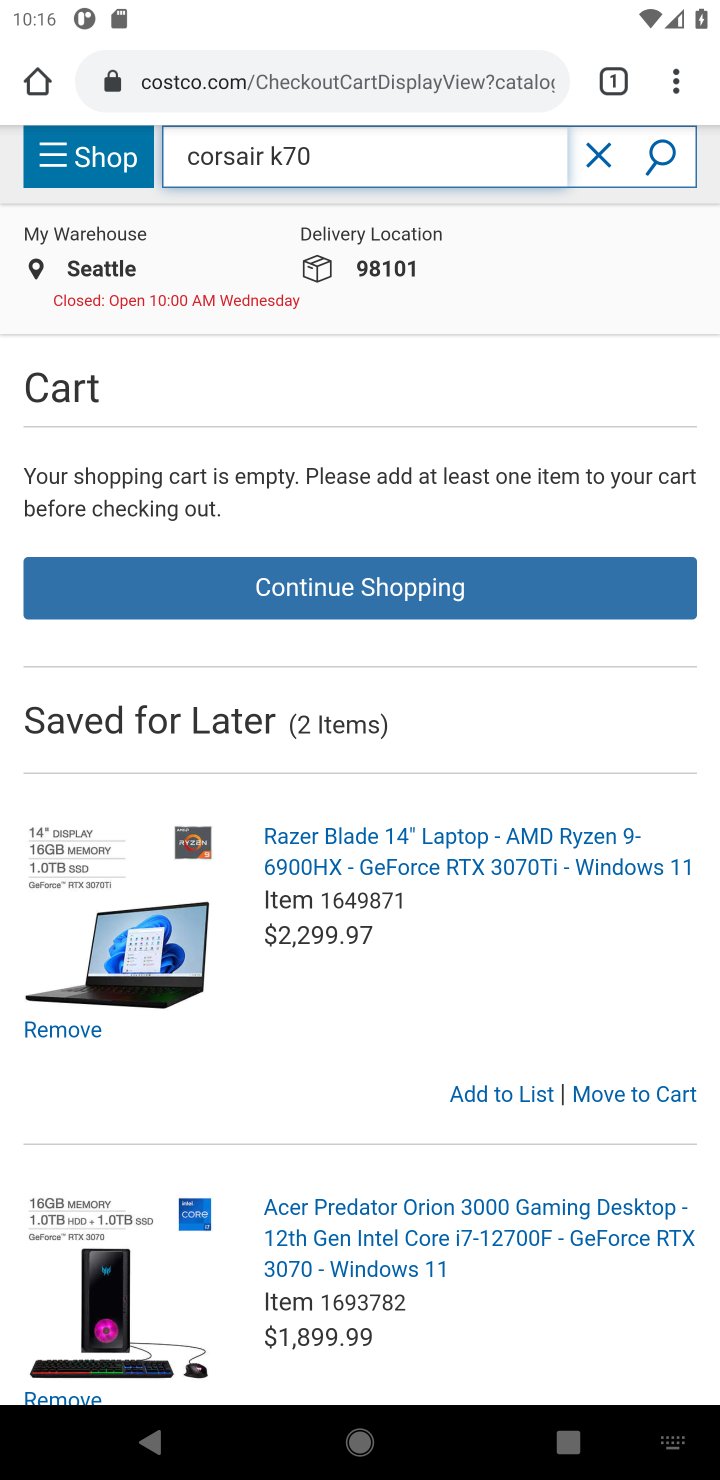
Step 30: press enter
Your task to perform on an android device: Clear all items from cart on costco. Search for "corsair k70" on costco, select the first entry, add it to the cart, then select checkout. Image 31: 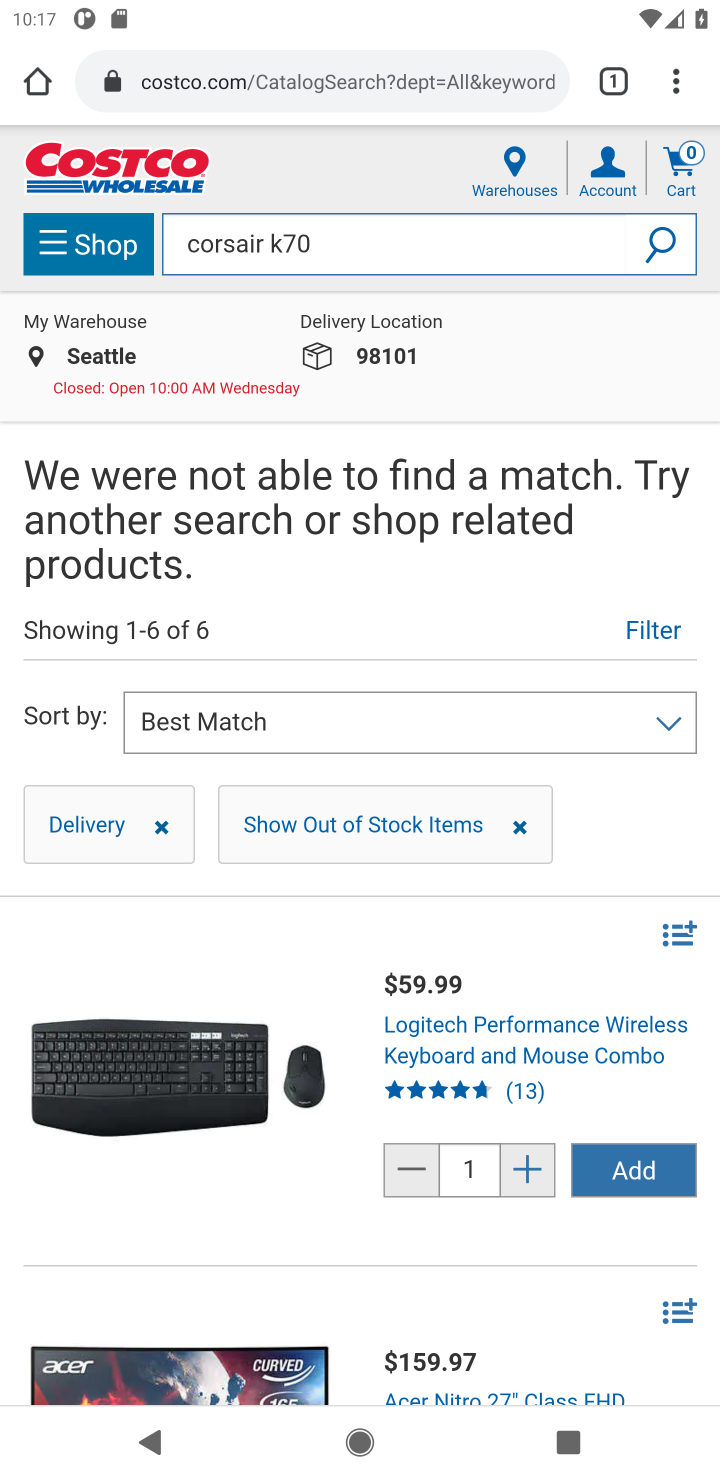
Step 31: drag from (475, 1113) to (497, 887)
Your task to perform on an android device: Clear all items from cart on costco. Search for "corsair k70" on costco, select the first entry, add it to the cart, then select checkout. Image 32: 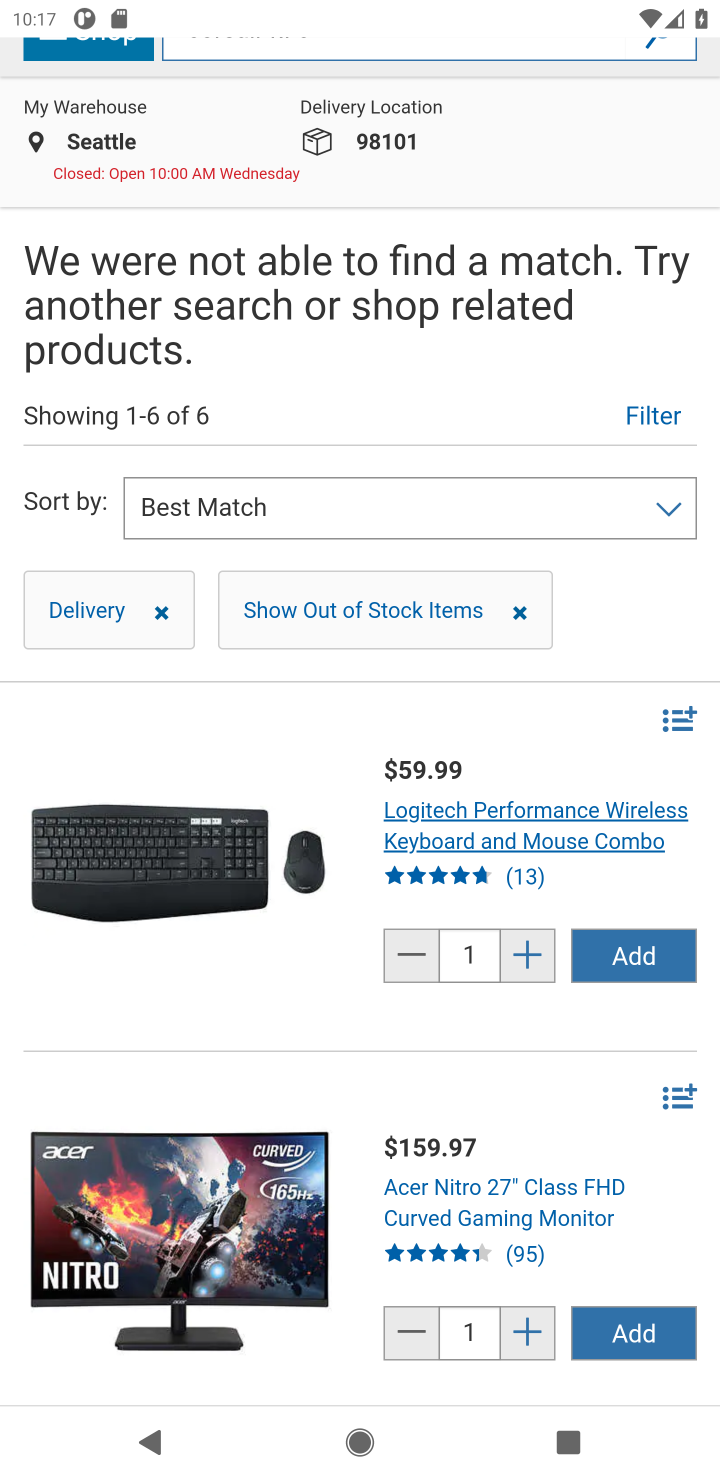
Step 32: click (551, 822)
Your task to perform on an android device: Clear all items from cart on costco. Search for "corsair k70" on costco, select the first entry, add it to the cart, then select checkout. Image 33: 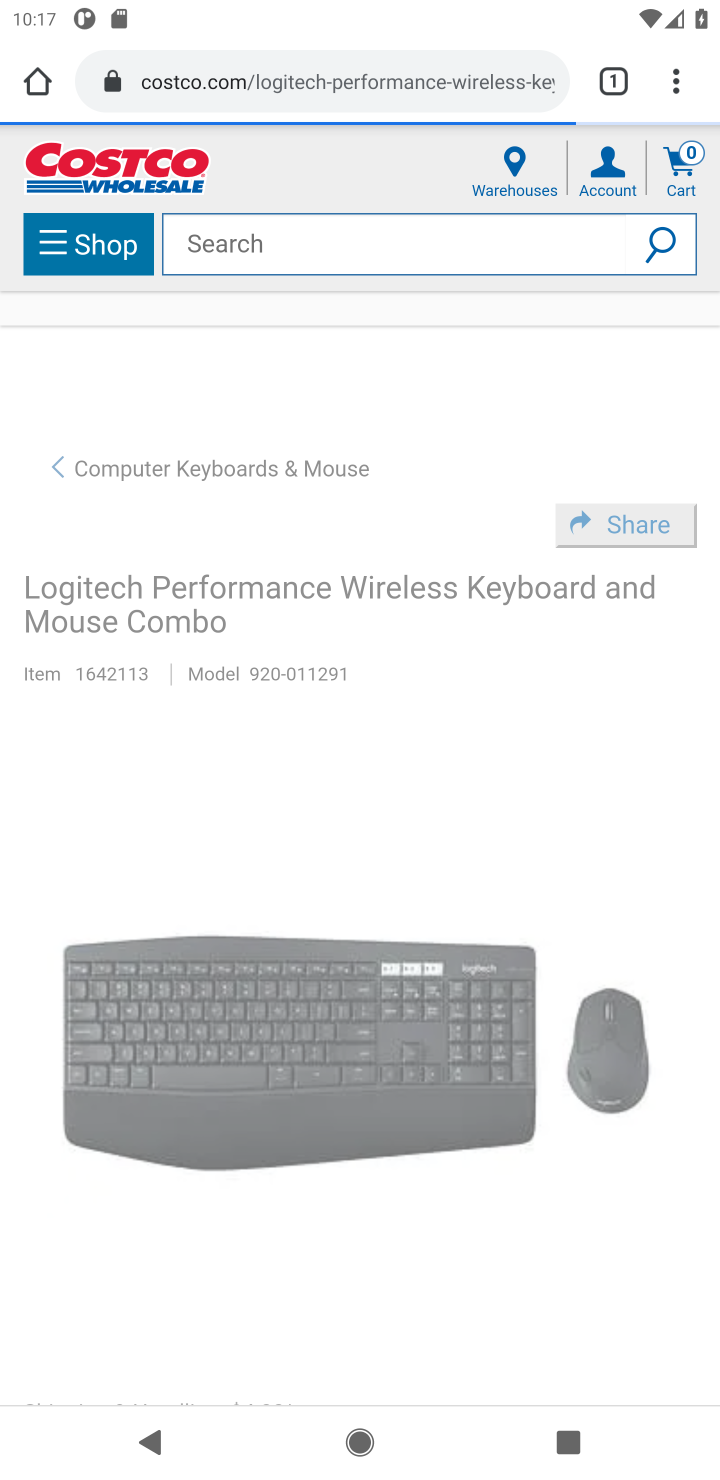
Step 33: drag from (547, 1219) to (528, 677)
Your task to perform on an android device: Clear all items from cart on costco. Search for "corsair k70" on costco, select the first entry, add it to the cart, then select checkout. Image 34: 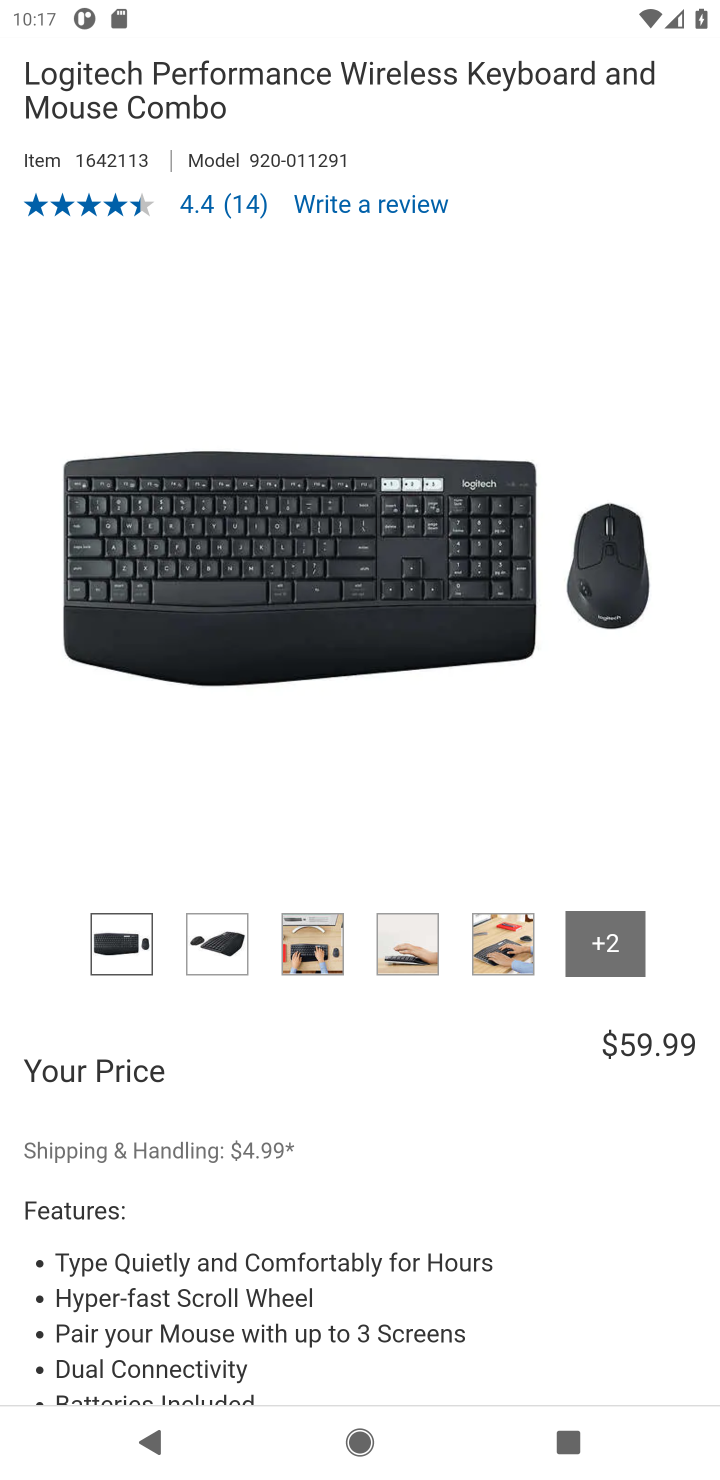
Step 34: drag from (519, 1260) to (529, 687)
Your task to perform on an android device: Clear all items from cart on costco. Search for "corsair k70" on costco, select the first entry, add it to the cart, then select checkout. Image 35: 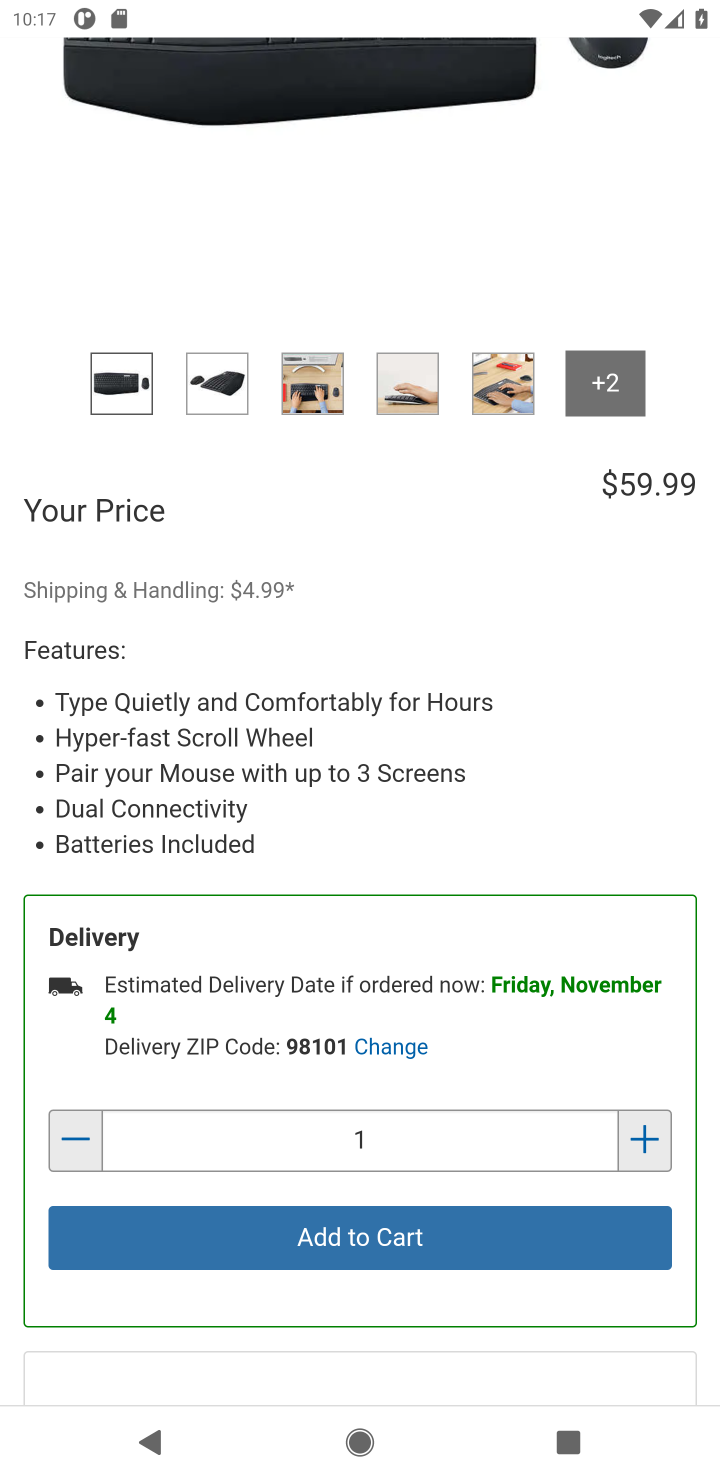
Step 35: click (521, 1255)
Your task to perform on an android device: Clear all items from cart on costco. Search for "corsair k70" on costco, select the first entry, add it to the cart, then select checkout. Image 36: 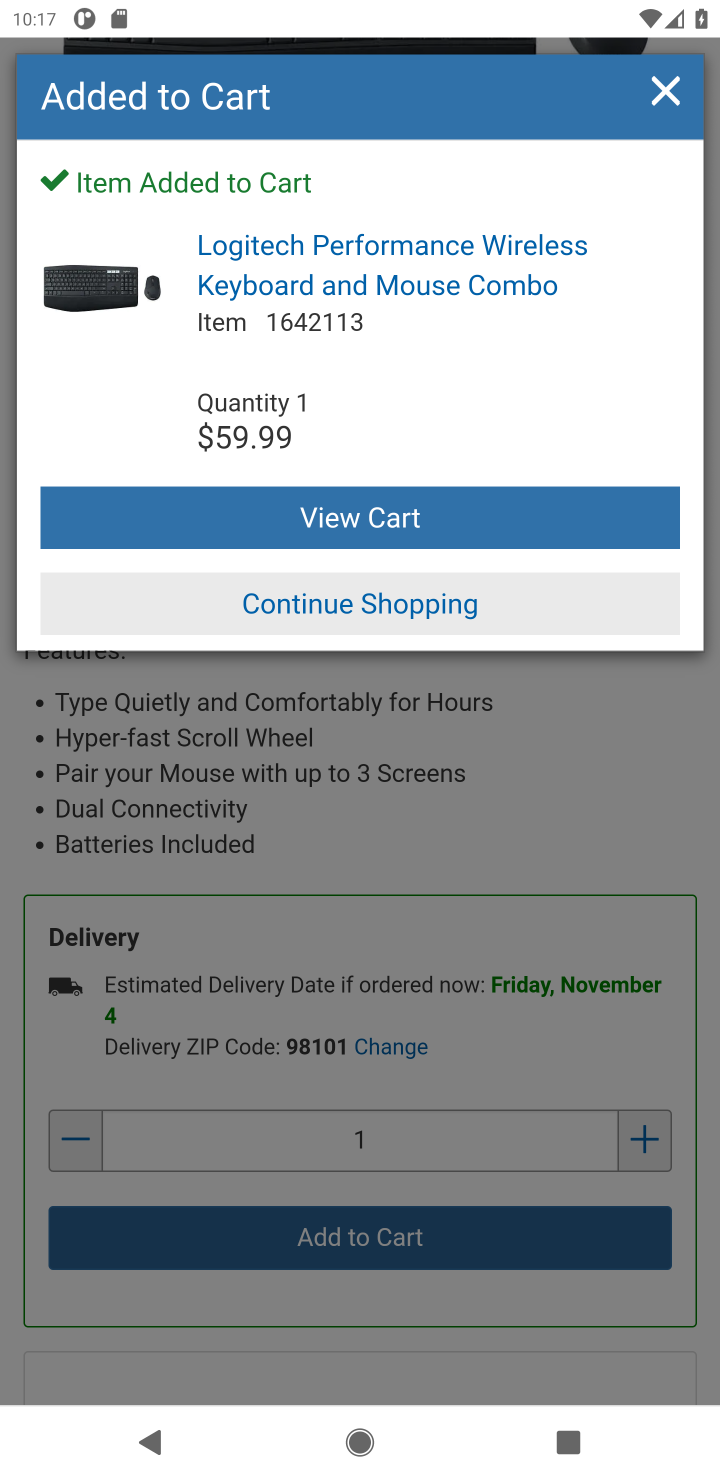
Step 36: click (449, 525)
Your task to perform on an android device: Clear all items from cart on costco. Search for "corsair k70" on costco, select the first entry, add it to the cart, then select checkout. Image 37: 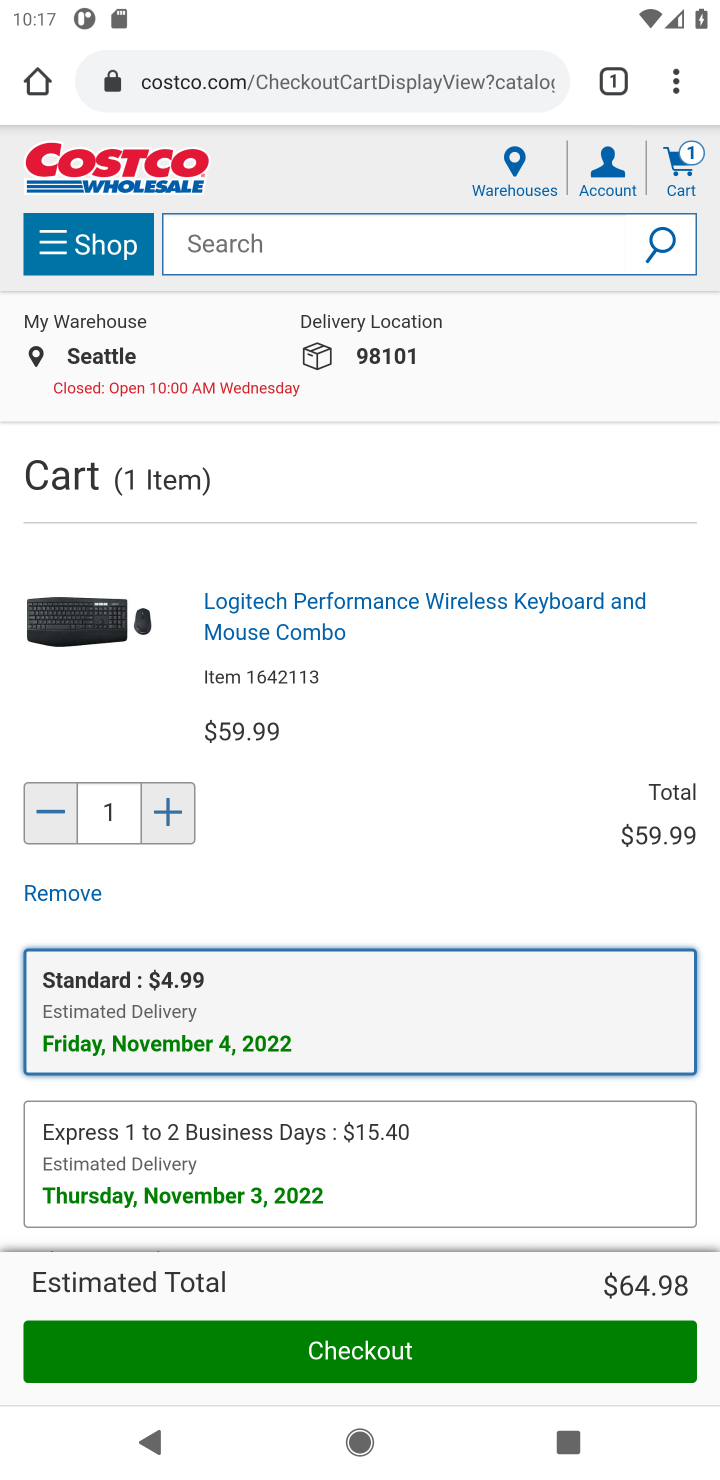
Step 37: click (491, 1350)
Your task to perform on an android device: Clear all items from cart on costco. Search for "corsair k70" on costco, select the first entry, add it to the cart, then select checkout. Image 38: 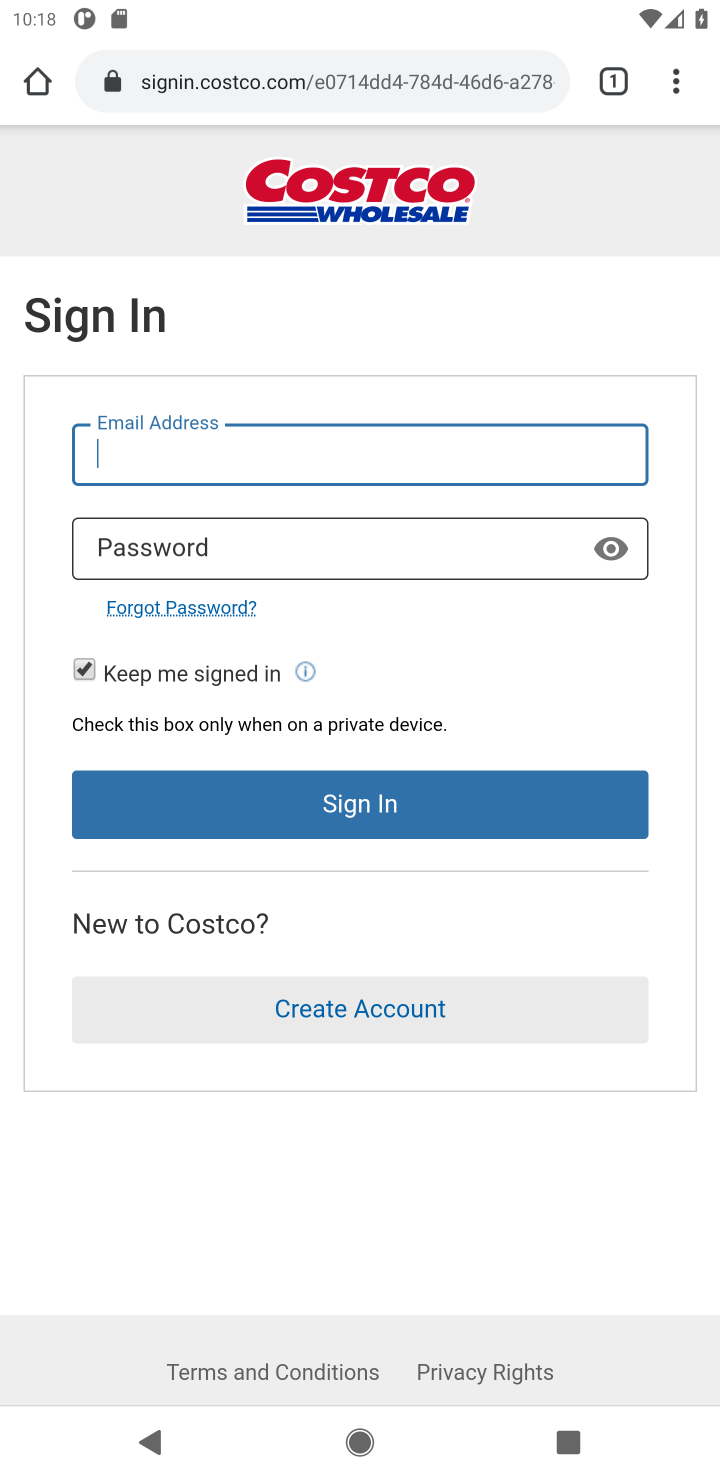
Step 38: task complete